Your task to perform on an android device: How much does a 2 bedroom apartment rent for in Philadelphia? Image 0: 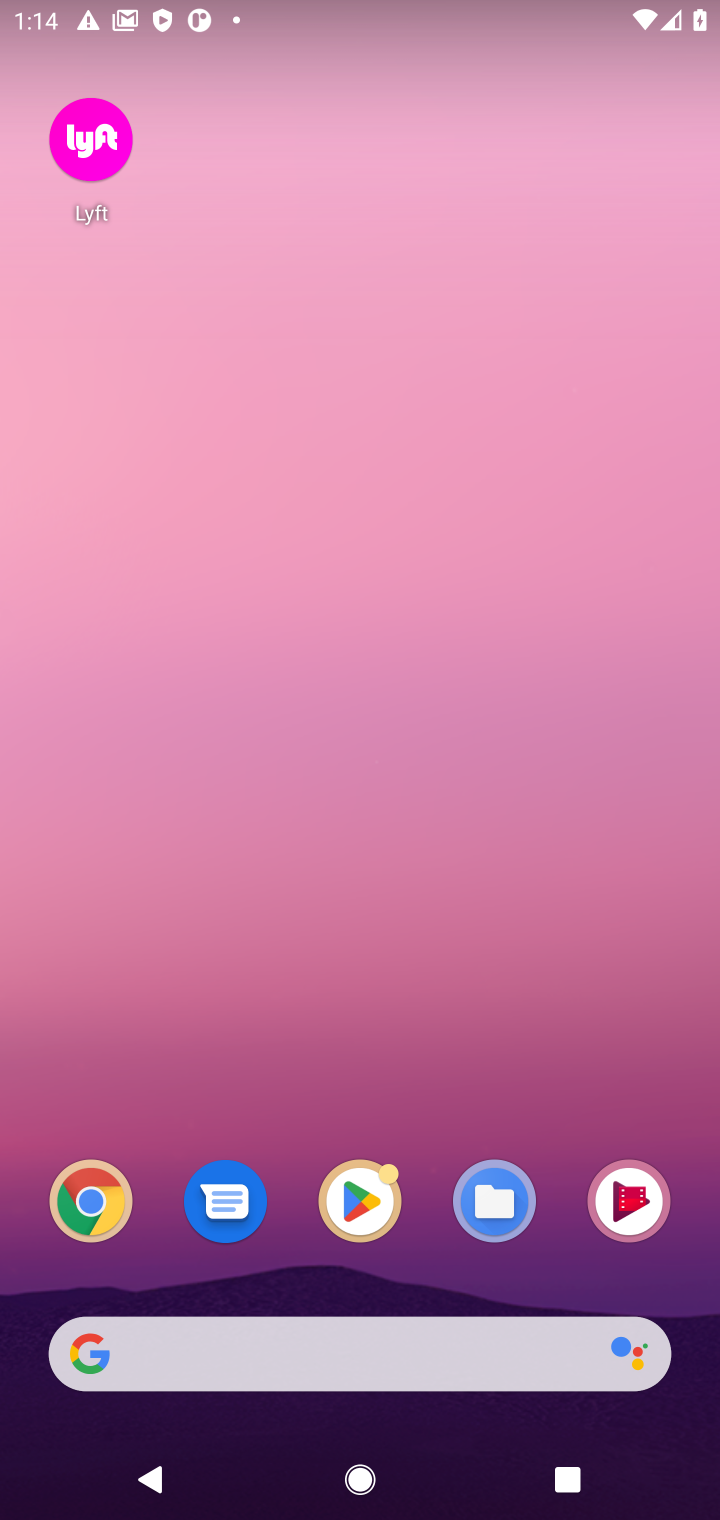
Step 0: click (168, 1353)
Your task to perform on an android device: How much does a 2 bedroom apartment rent for in Philadelphia? Image 1: 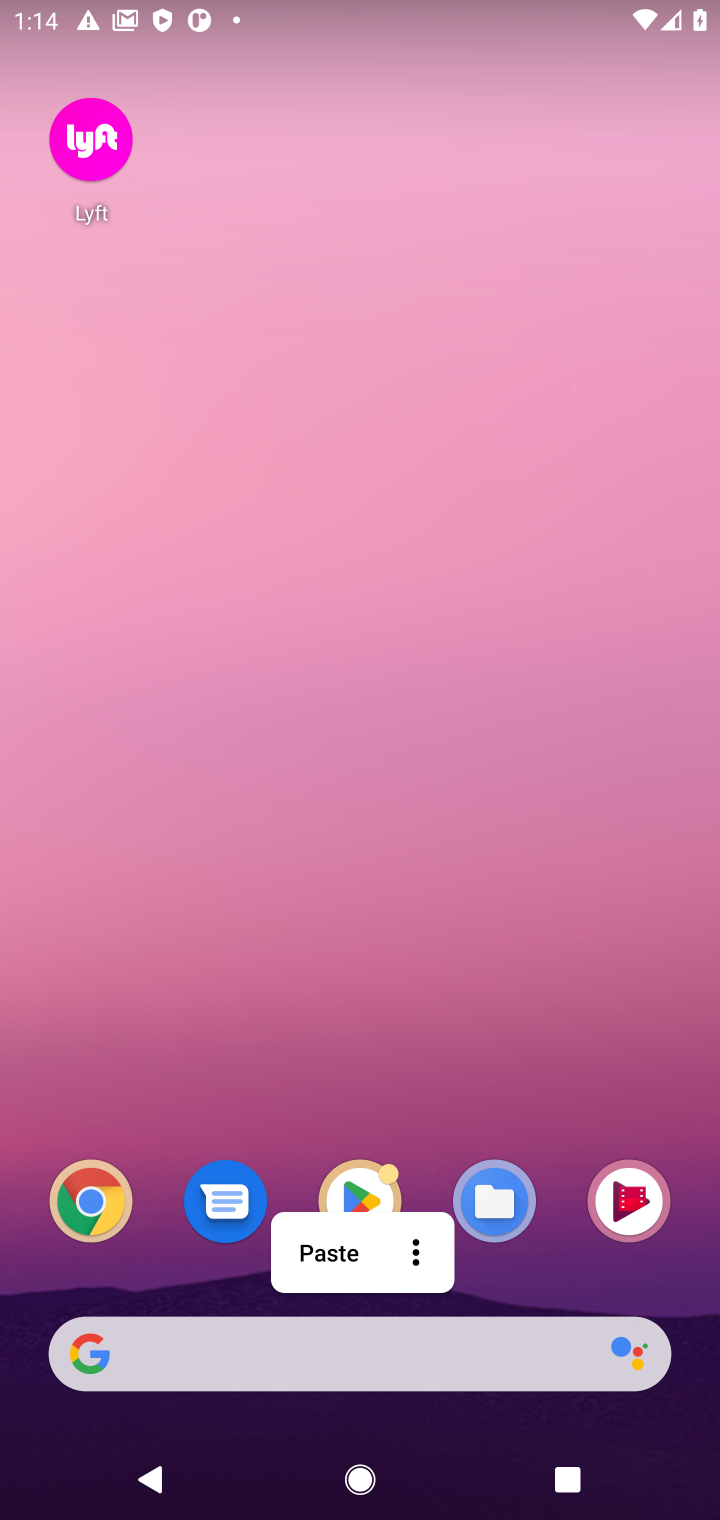
Step 1: click (255, 1357)
Your task to perform on an android device: How much does a 2 bedroom apartment rent for in Philadelphia? Image 2: 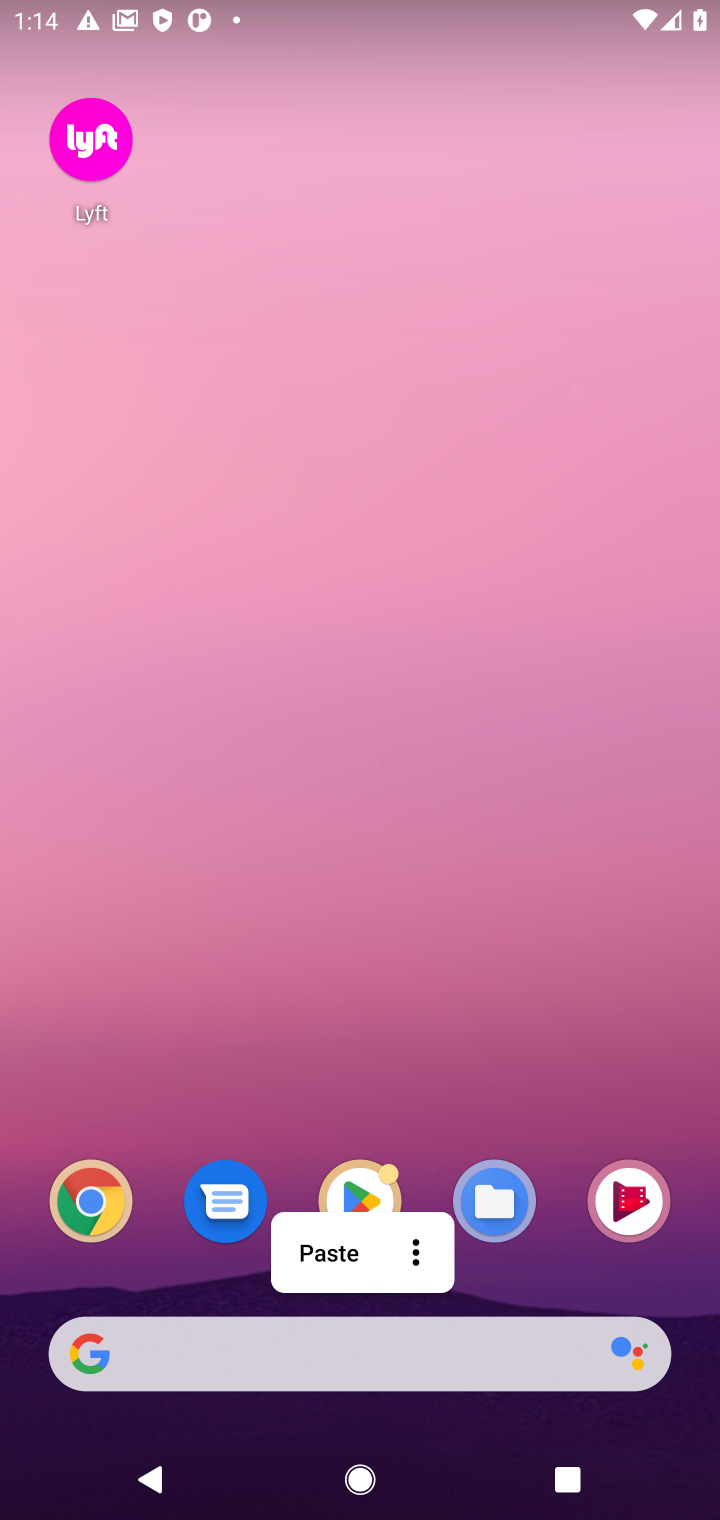
Step 2: click (269, 1341)
Your task to perform on an android device: How much does a 2 bedroom apartment rent for in Philadelphia? Image 3: 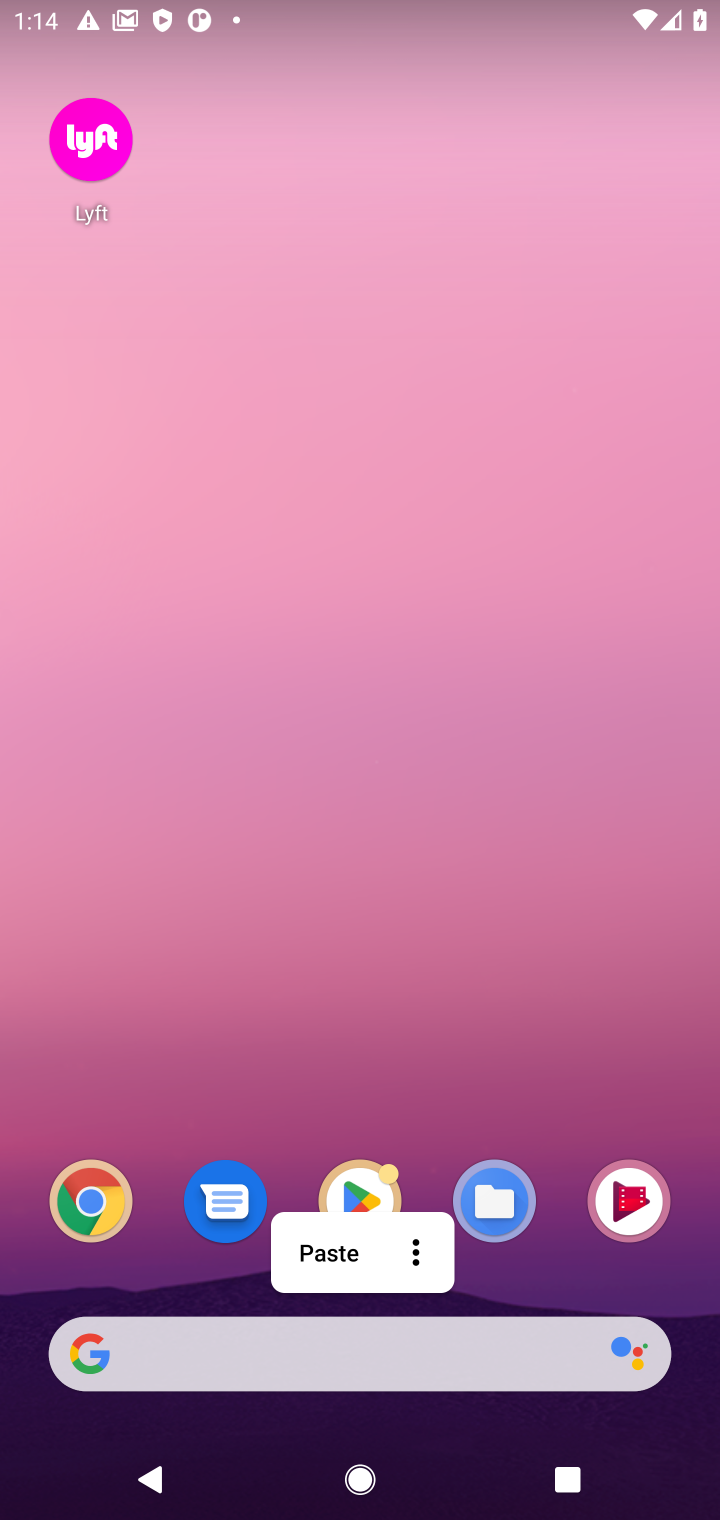
Step 3: click (114, 1359)
Your task to perform on an android device: How much does a 2 bedroom apartment rent for in Philadelphia? Image 4: 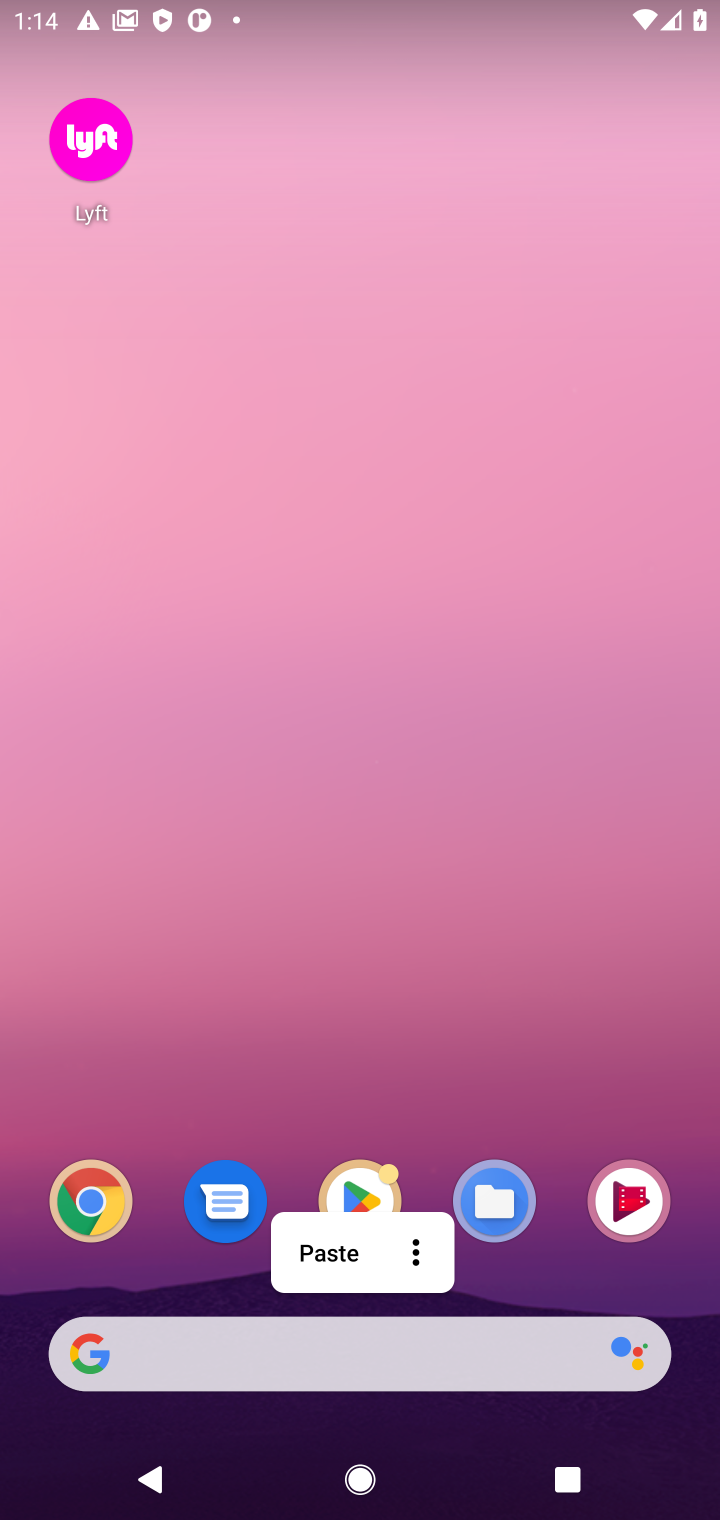
Step 4: click (206, 1342)
Your task to perform on an android device: How much does a 2 bedroom apartment rent for in Philadelphia? Image 5: 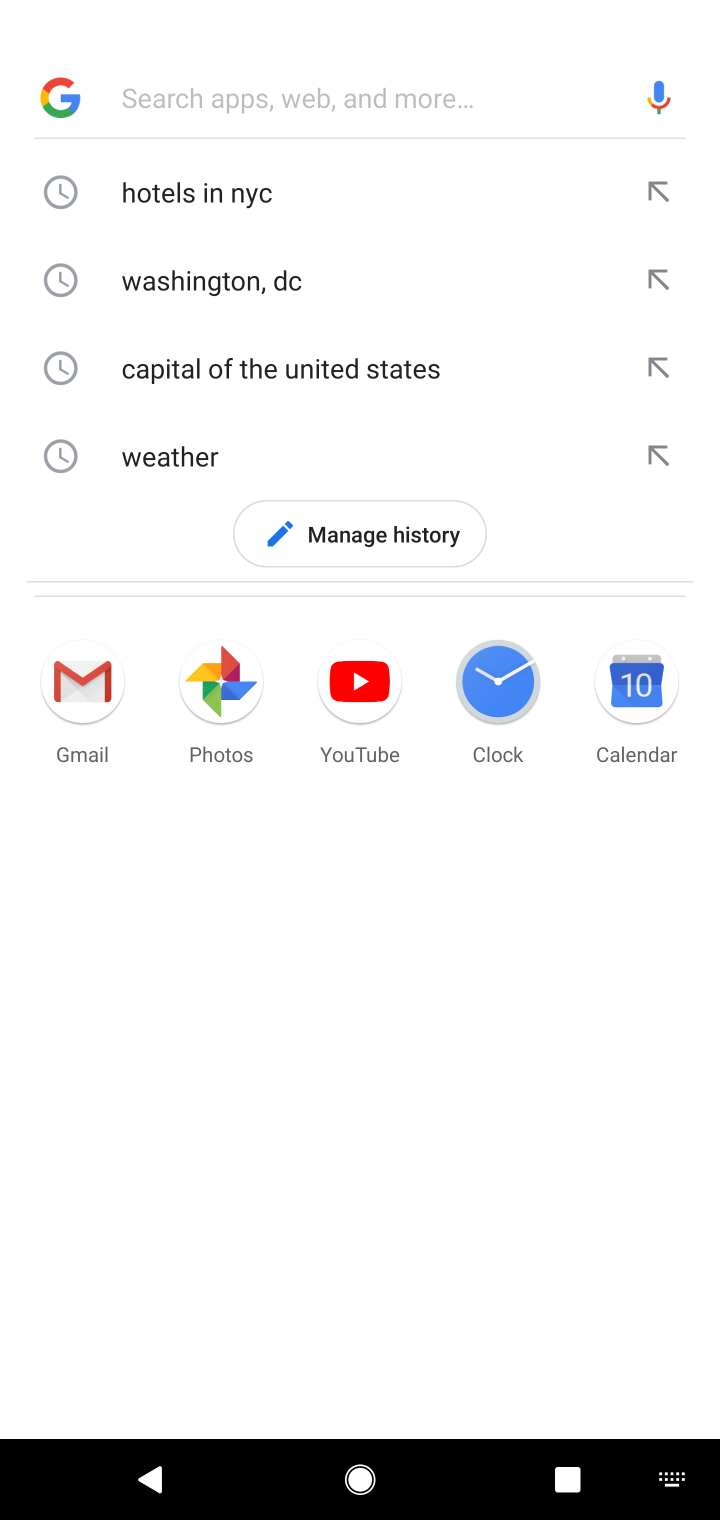
Step 5: click (175, 108)
Your task to perform on an android device: How much does a 2 bedroom apartment rent for in Philadelphia? Image 6: 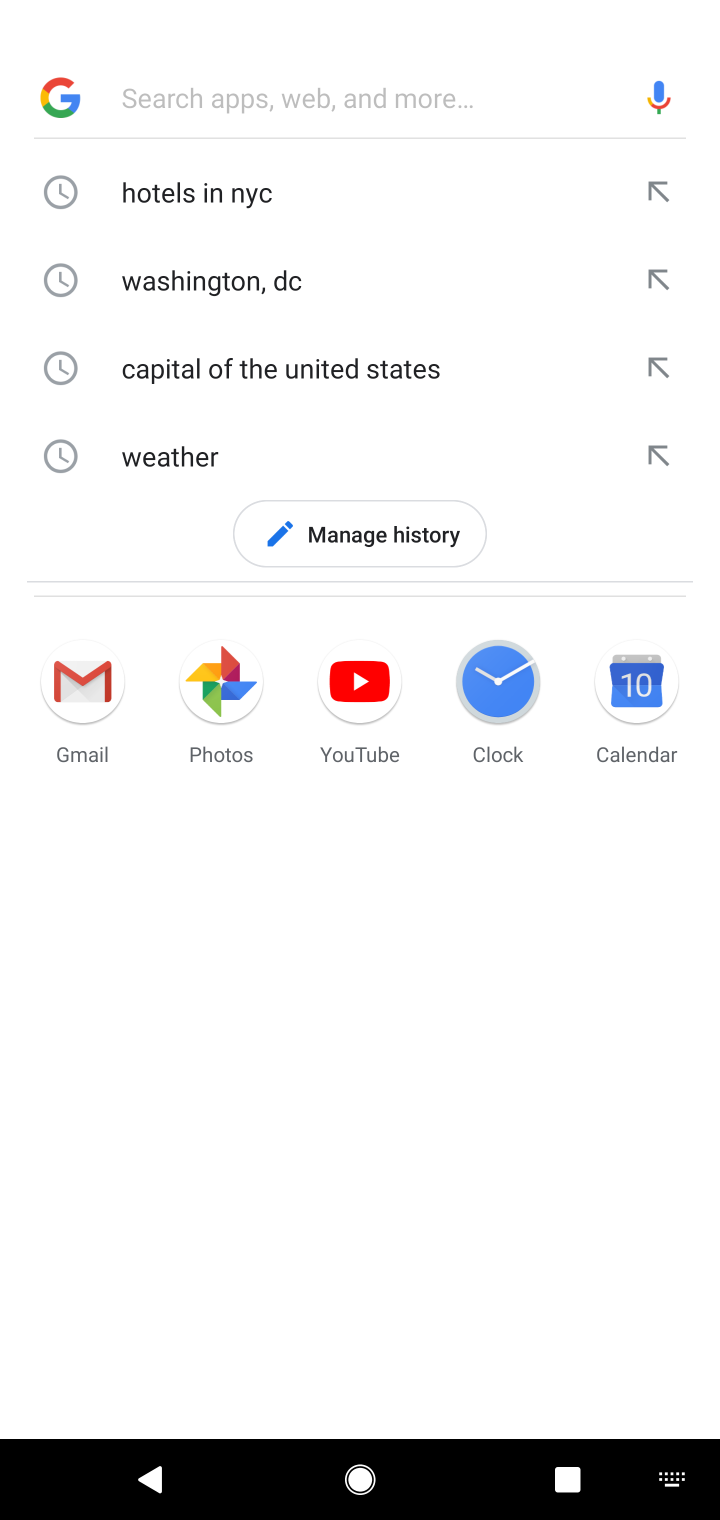
Step 6: type "How much does a 2 bedroom apartment rent for in Philadelphia?"
Your task to perform on an android device: How much does a 2 bedroom apartment rent for in Philadelphia? Image 7: 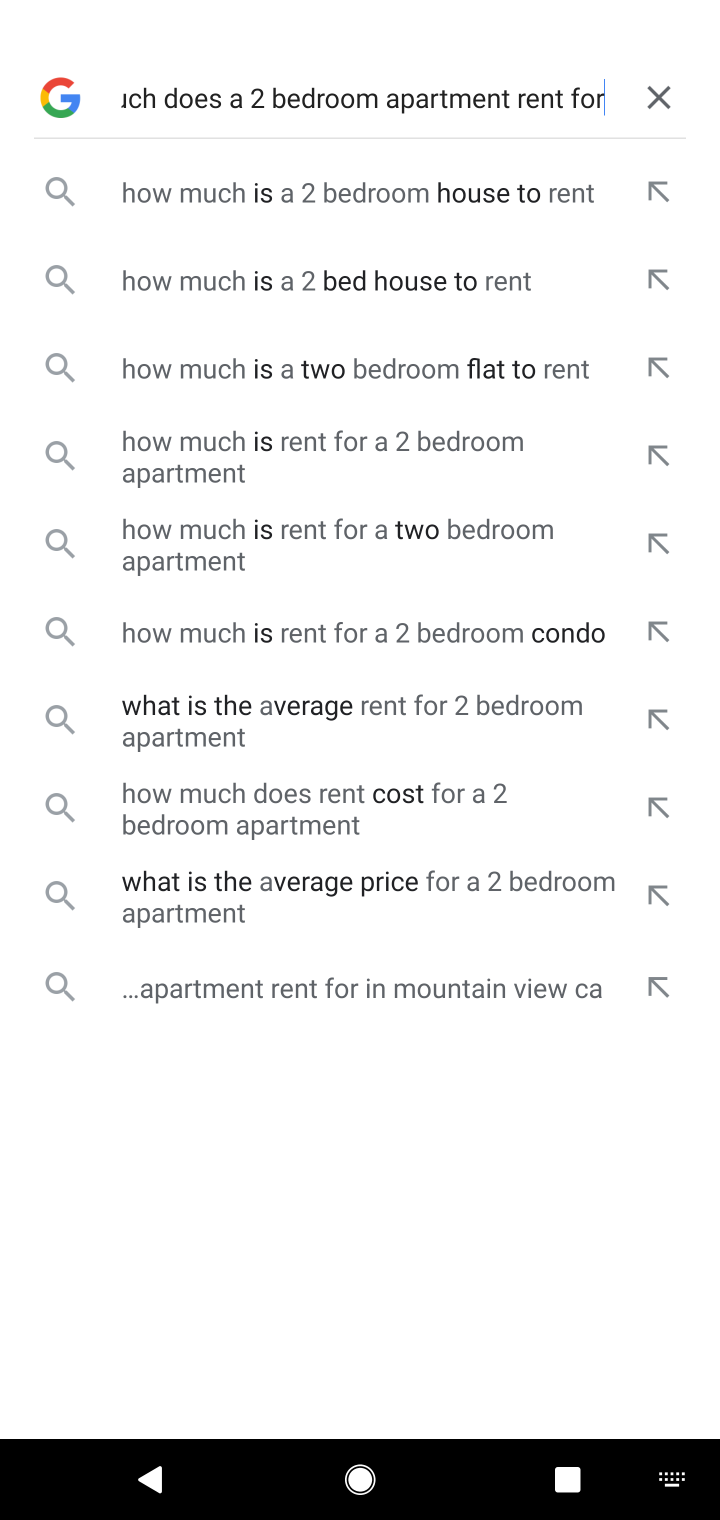
Step 7: click (577, 99)
Your task to perform on an android device: How much does a 2 bedroom apartment rent for in Philadelphia? Image 8: 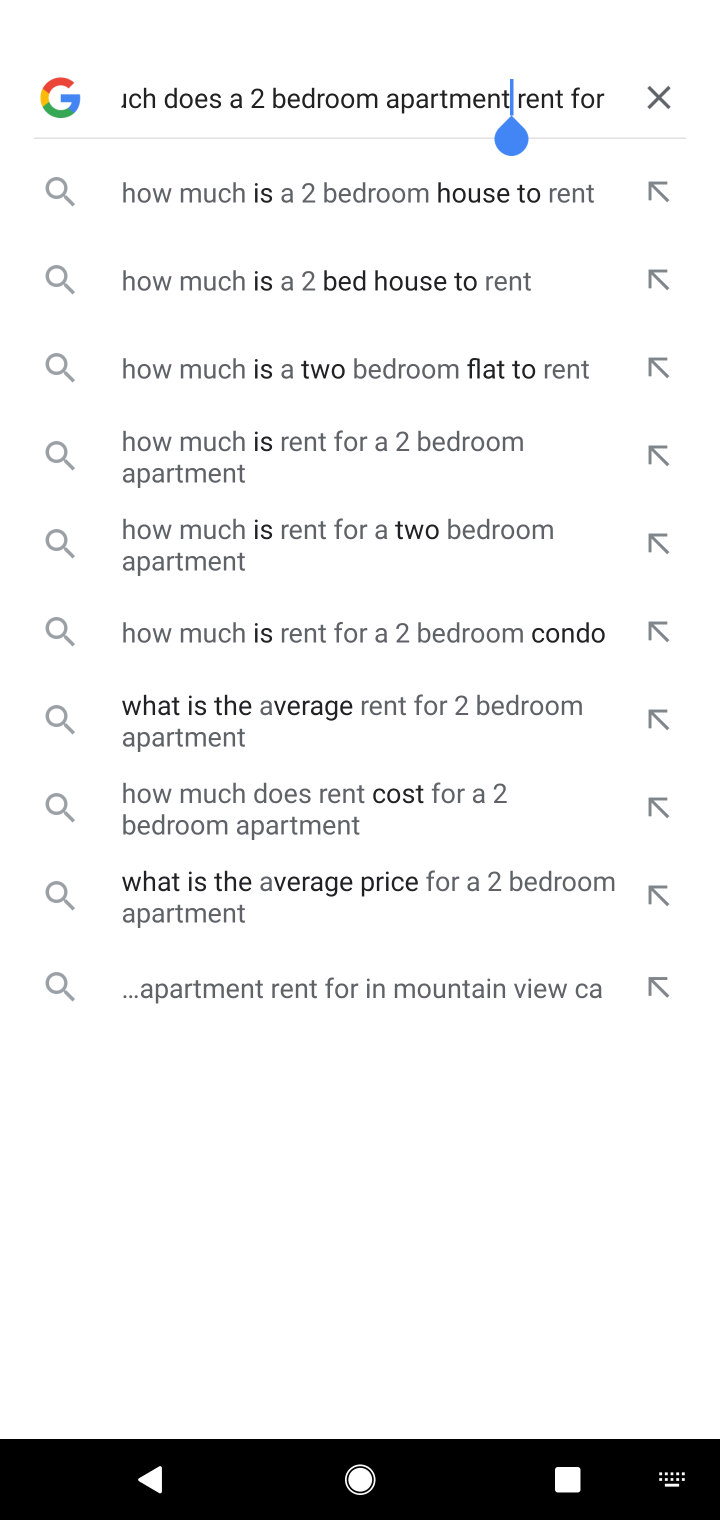
Step 8: click (602, 96)
Your task to perform on an android device: How much does a 2 bedroom apartment rent for in Philadelphia? Image 9: 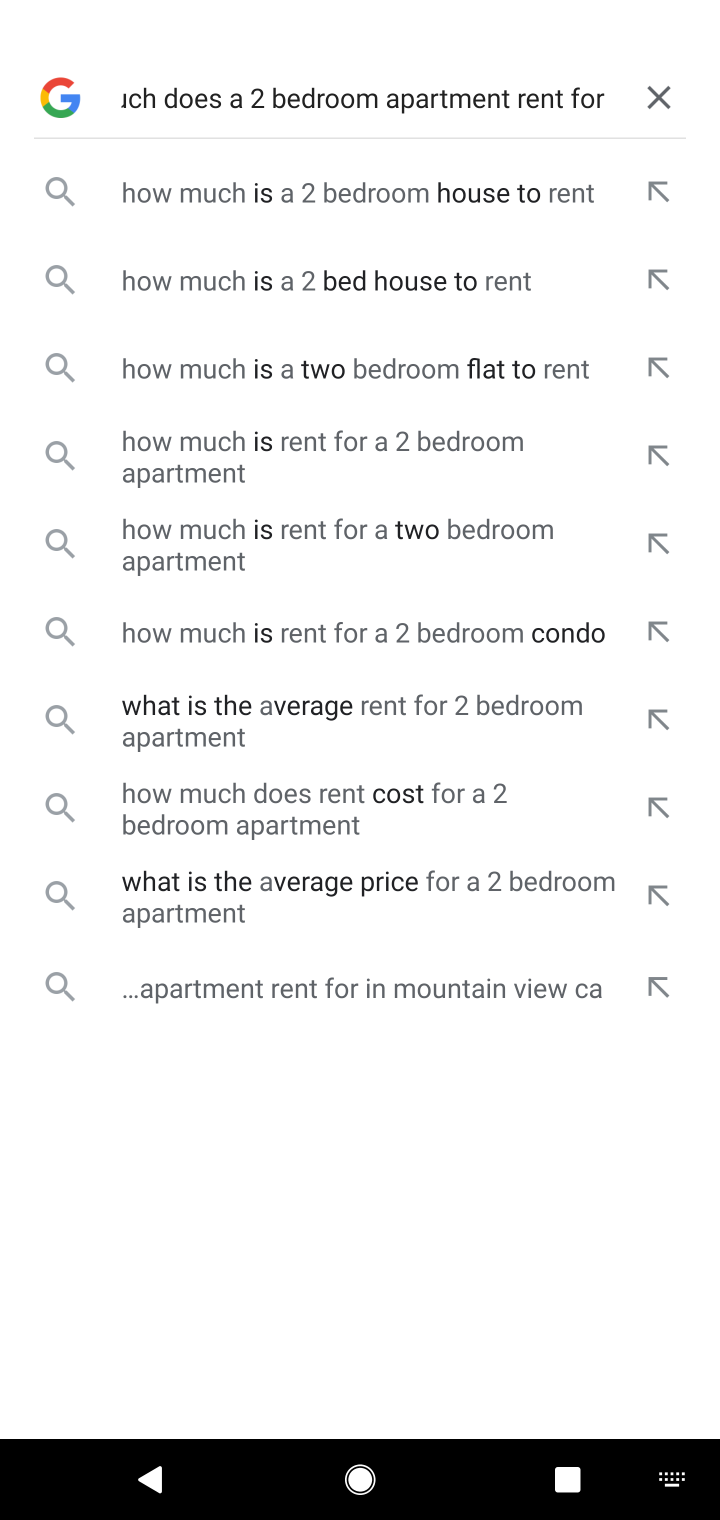
Step 9: type " in philadelphia?"
Your task to perform on an android device: How much does a 2 bedroom apartment rent for in Philadelphia? Image 10: 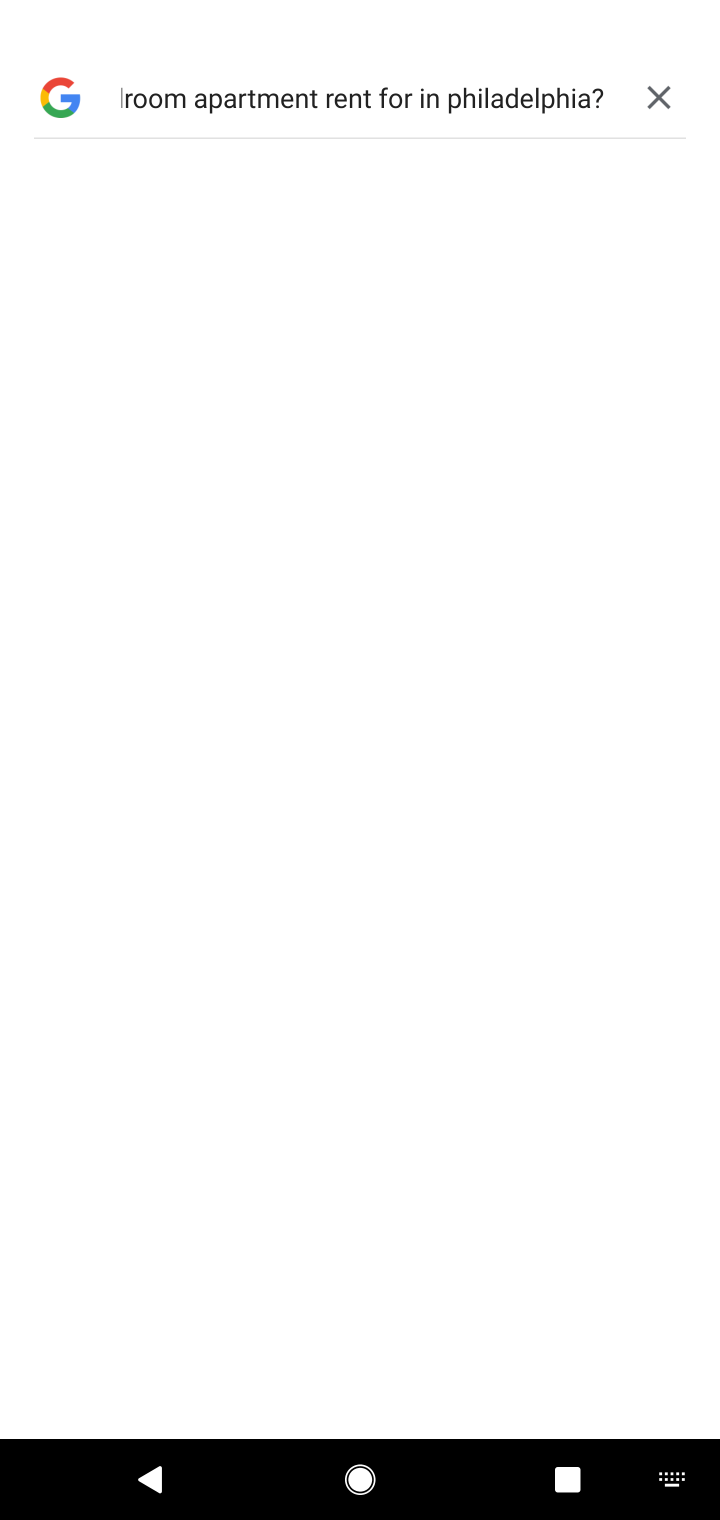
Step 10: click (539, 115)
Your task to perform on an android device: How much does a 2 bedroom apartment rent for in Philadelphia? Image 11: 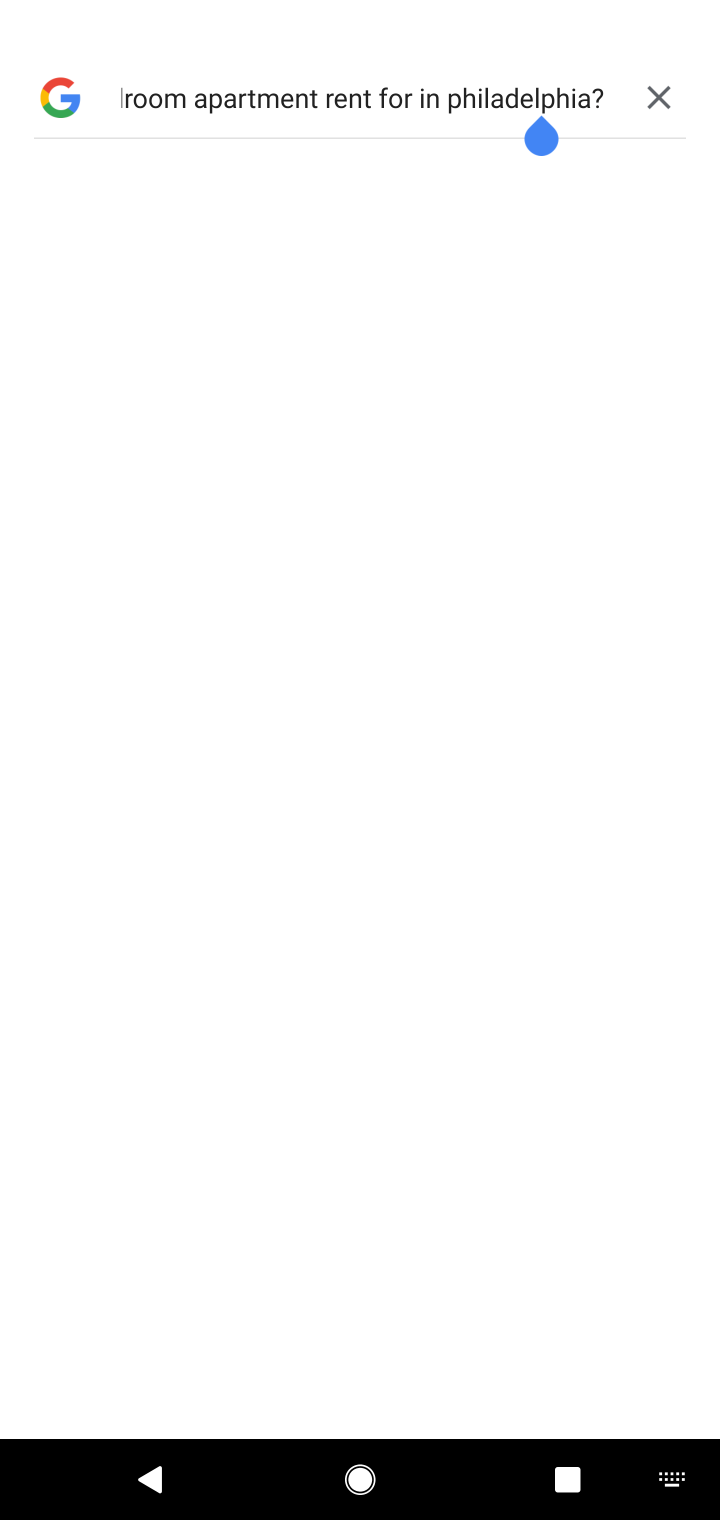
Step 11: click (612, 111)
Your task to perform on an android device: How much does a 2 bedroom apartment rent for in Philadelphia? Image 12: 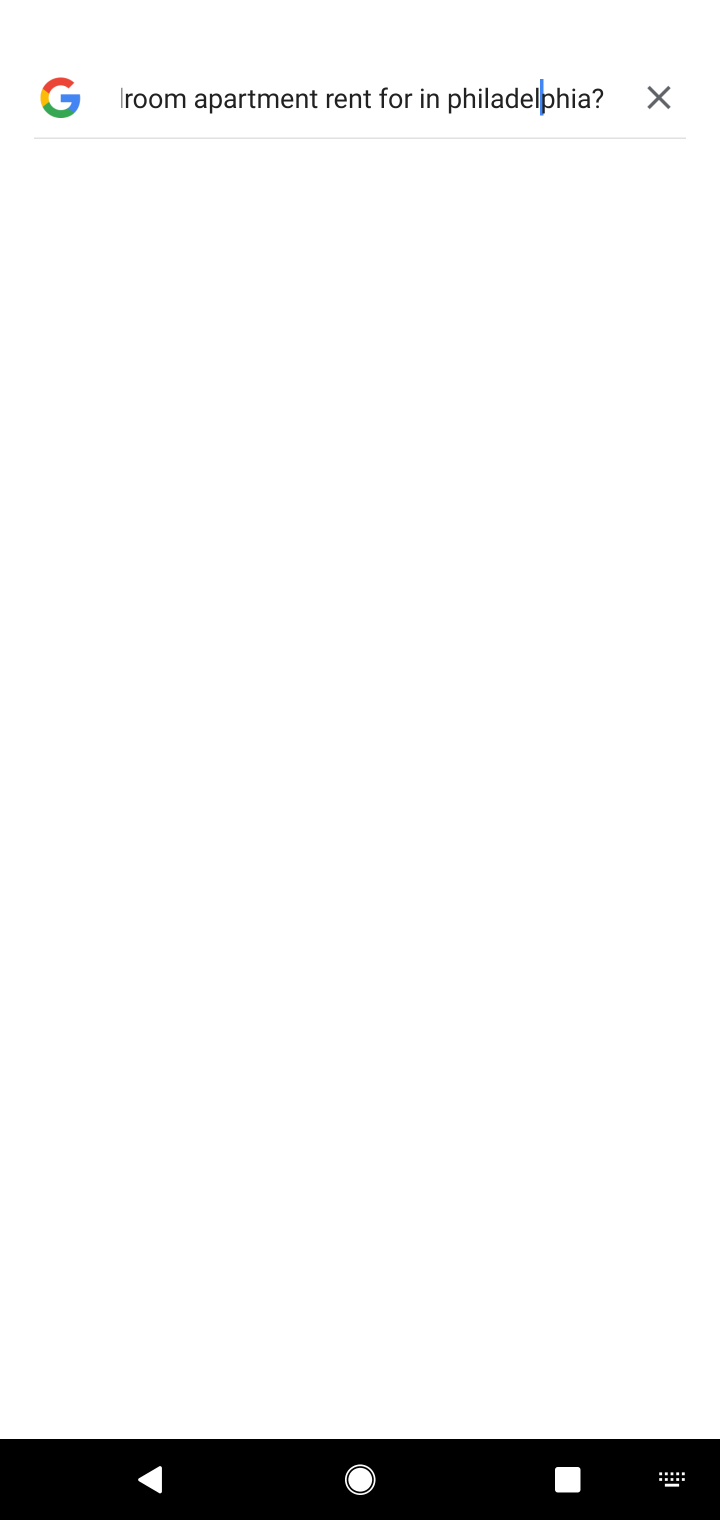
Step 12: click (607, 111)
Your task to perform on an android device: How much does a 2 bedroom apartment rent for in Philadelphia? Image 13: 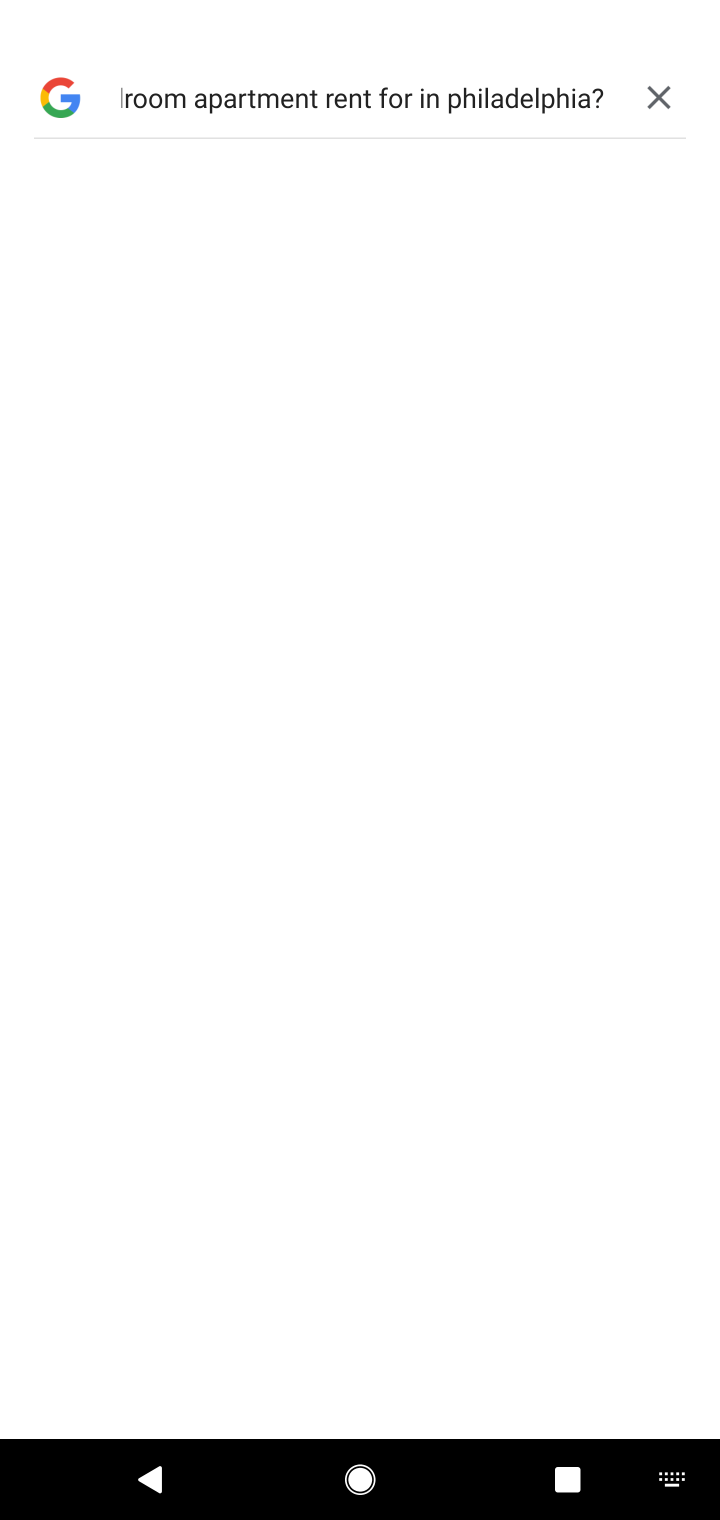
Step 13: drag from (611, 109) to (352, 140)
Your task to perform on an android device: How much does a 2 bedroom apartment rent for in Philadelphia? Image 14: 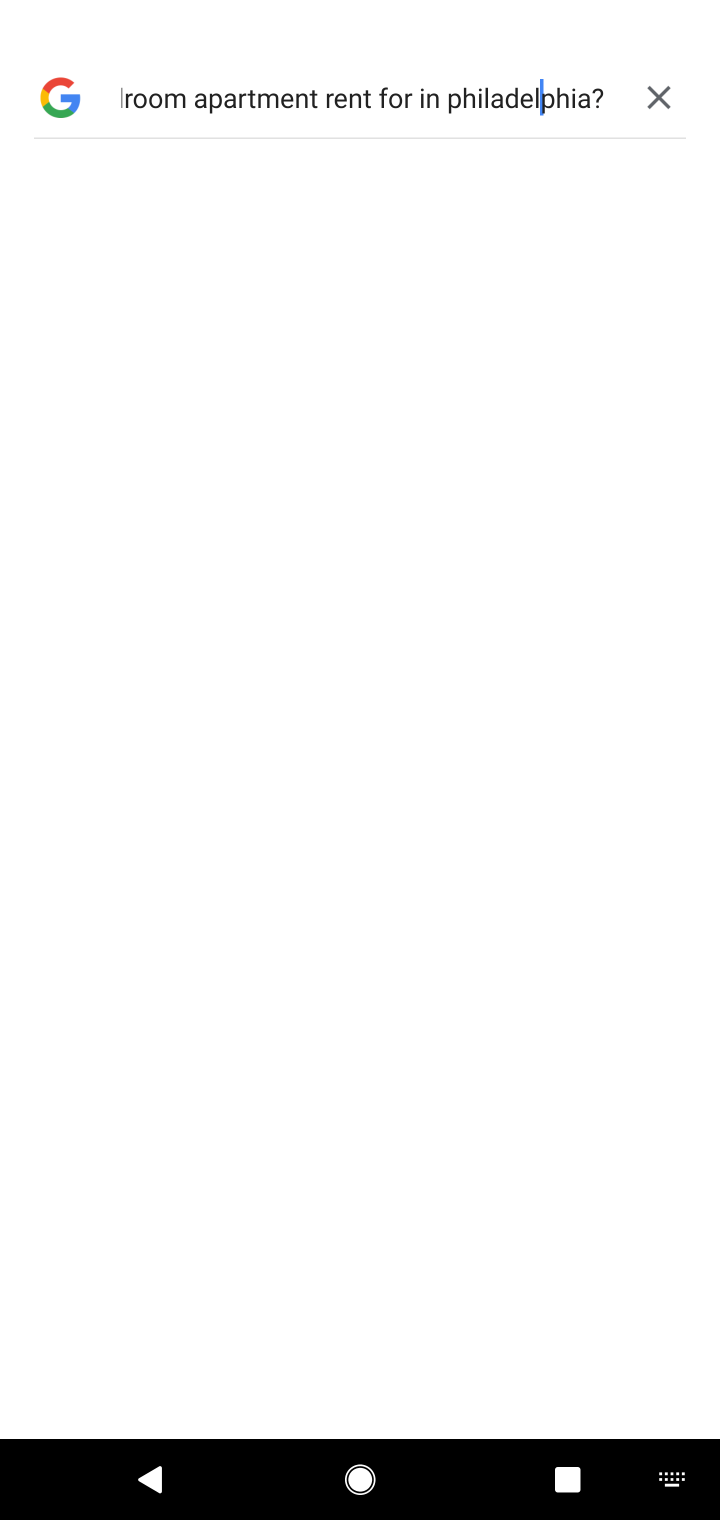
Step 14: drag from (607, 91) to (353, 88)
Your task to perform on an android device: How much does a 2 bedroom apartment rent for in Philadelphia? Image 15: 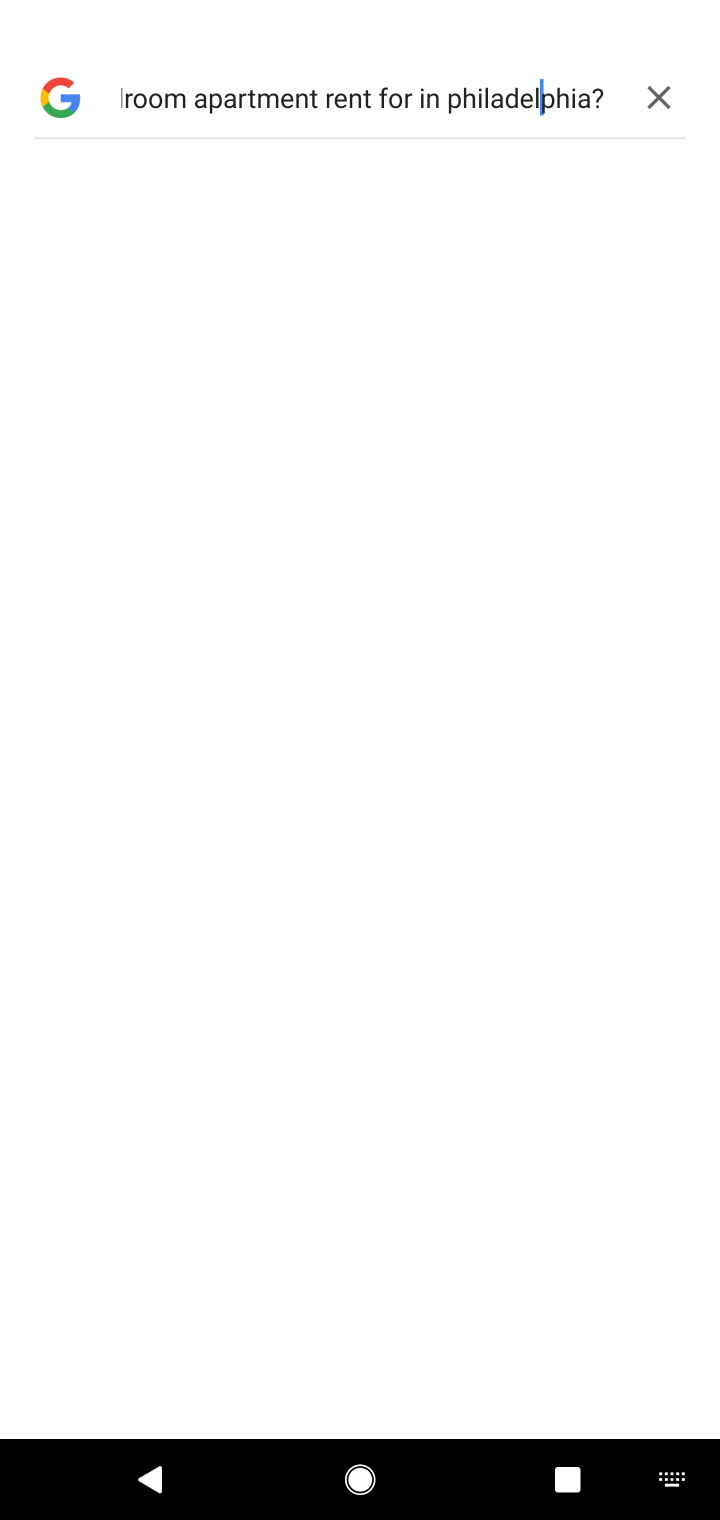
Step 15: click (655, 88)
Your task to perform on an android device: How much does a 2 bedroom apartment rent for in Philadelphia? Image 16: 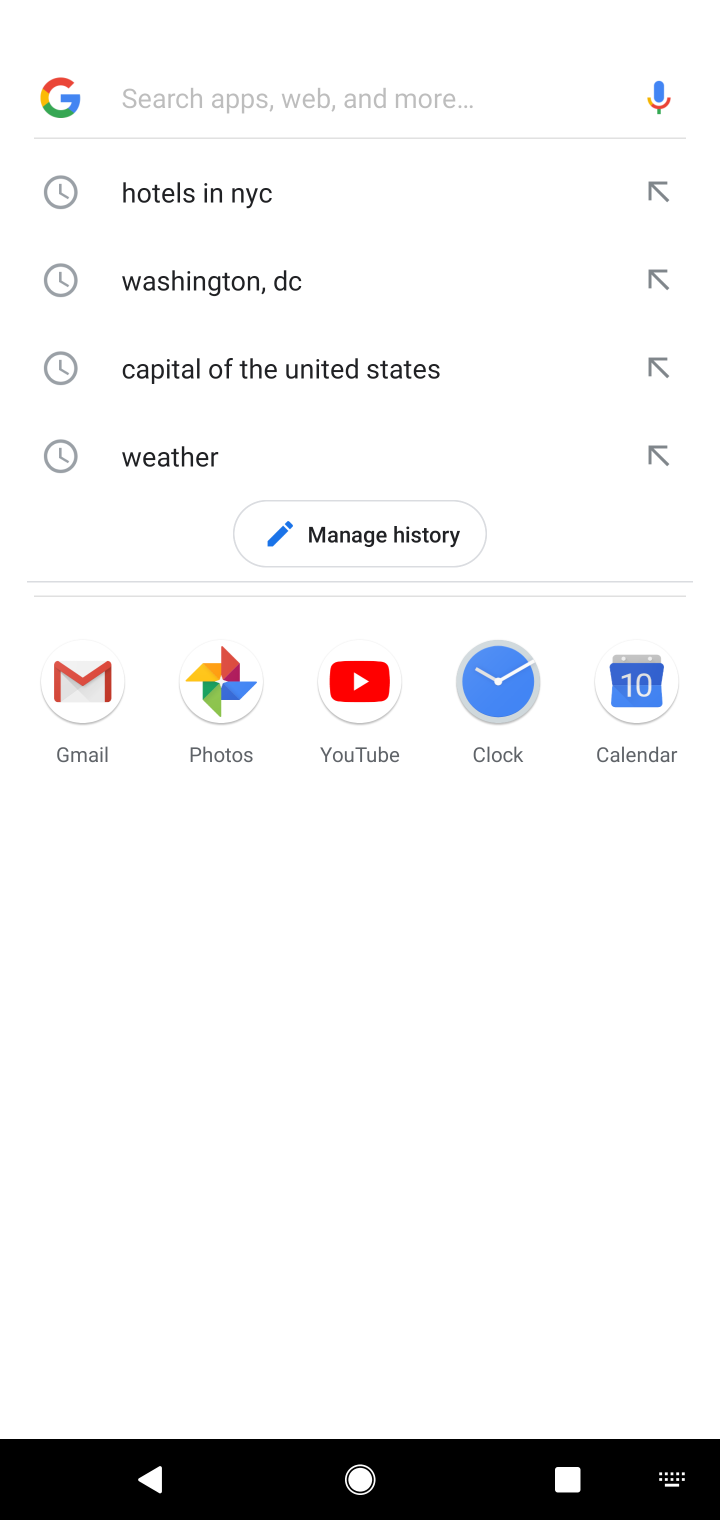
Step 16: click (376, 87)
Your task to perform on an android device: How much does a 2 bedroom apartment rent for in Philadelphia? Image 17: 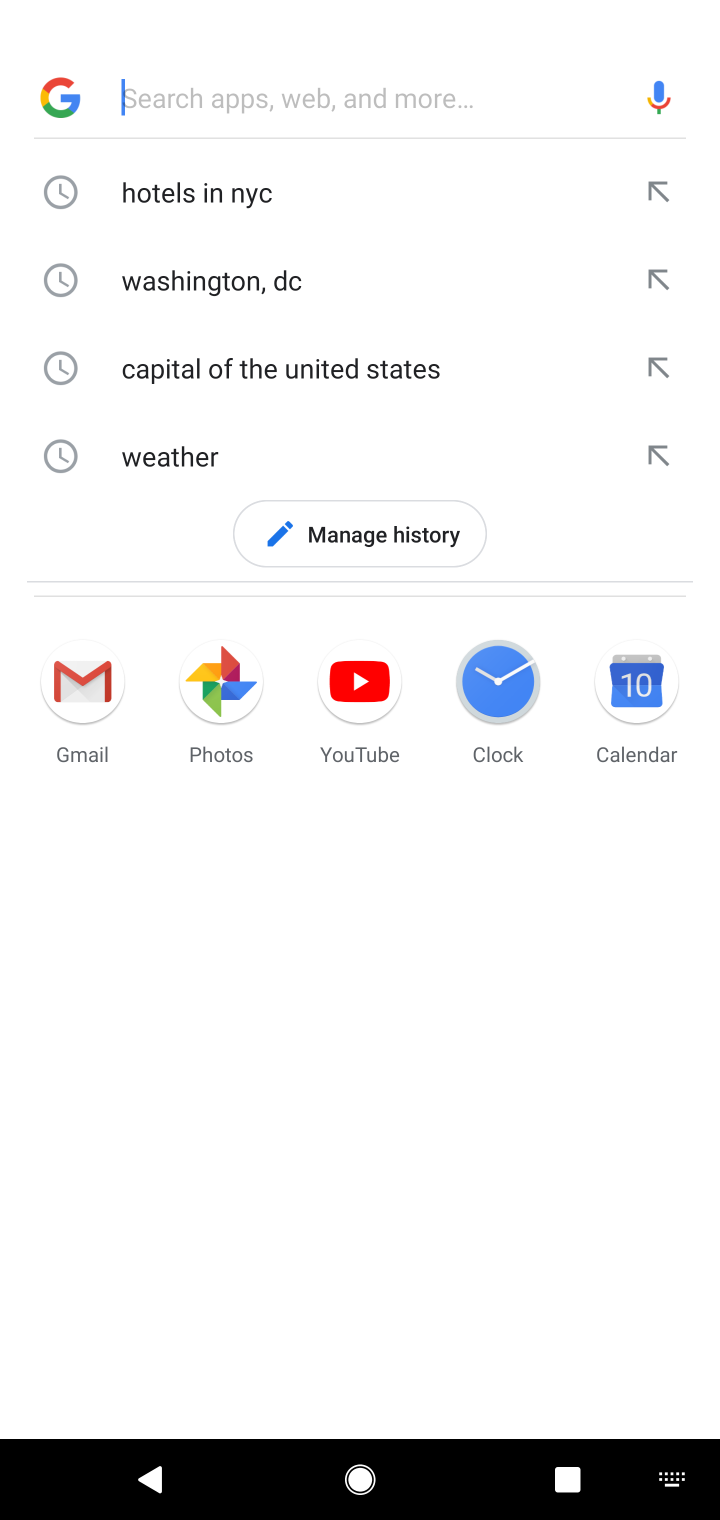
Step 17: type "How much does a 2 bedroom apartment rent for in Philadelphia?"
Your task to perform on an android device: How much does a 2 bedroom apartment rent for in Philadelphia? Image 18: 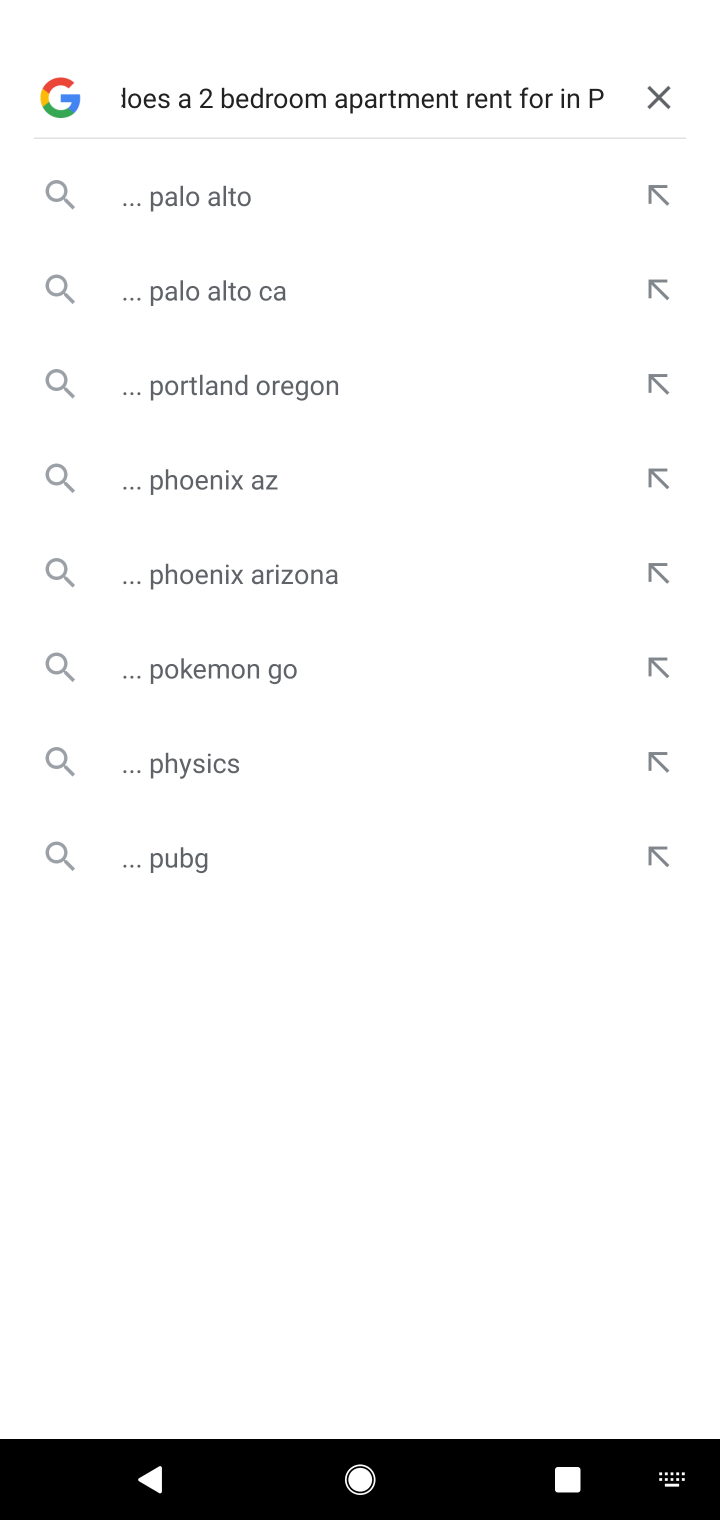
Step 18: type "hiladelphia"
Your task to perform on an android device: How much does a 2 bedroom apartment rent for in Philadelphia? Image 19: 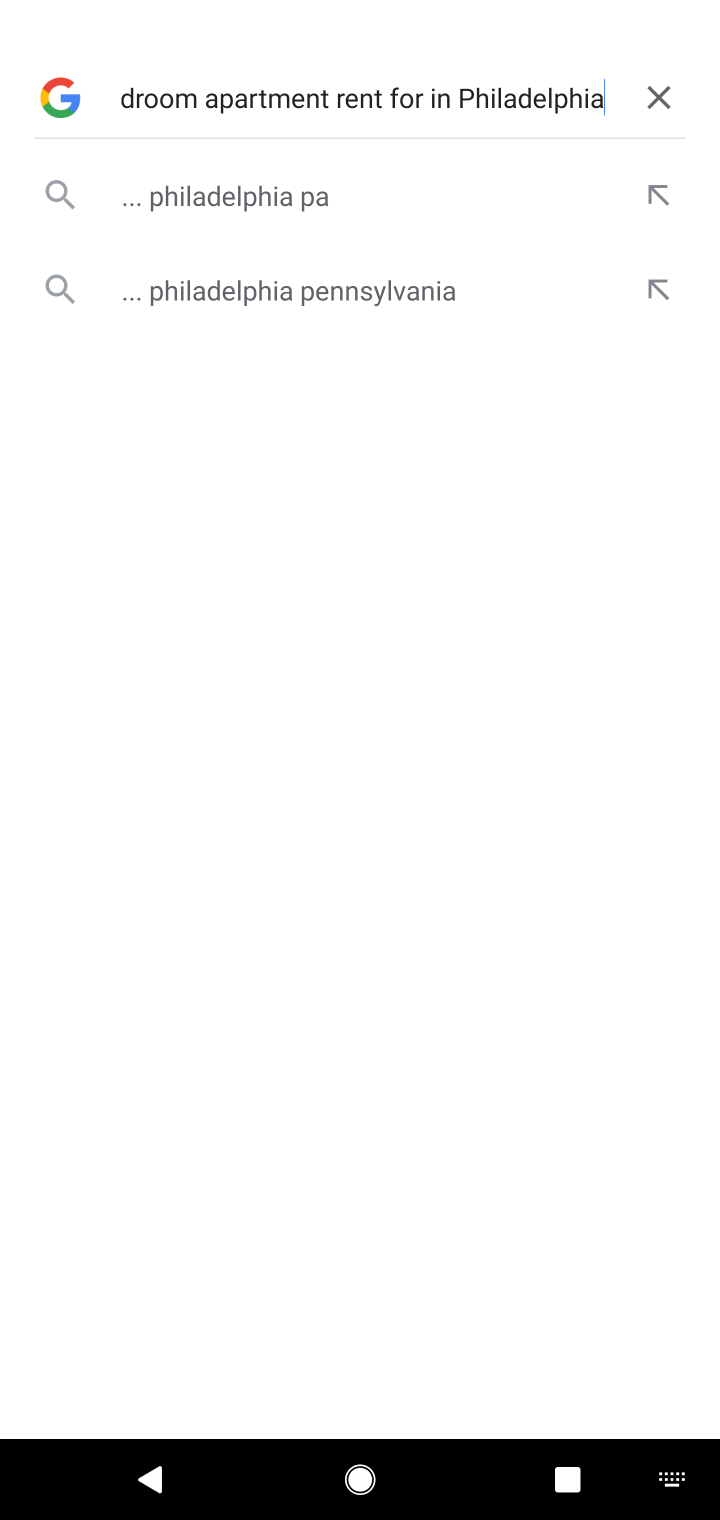
Step 19: click (202, 205)
Your task to perform on an android device: How much does a 2 bedroom apartment rent for in Philadelphia? Image 20: 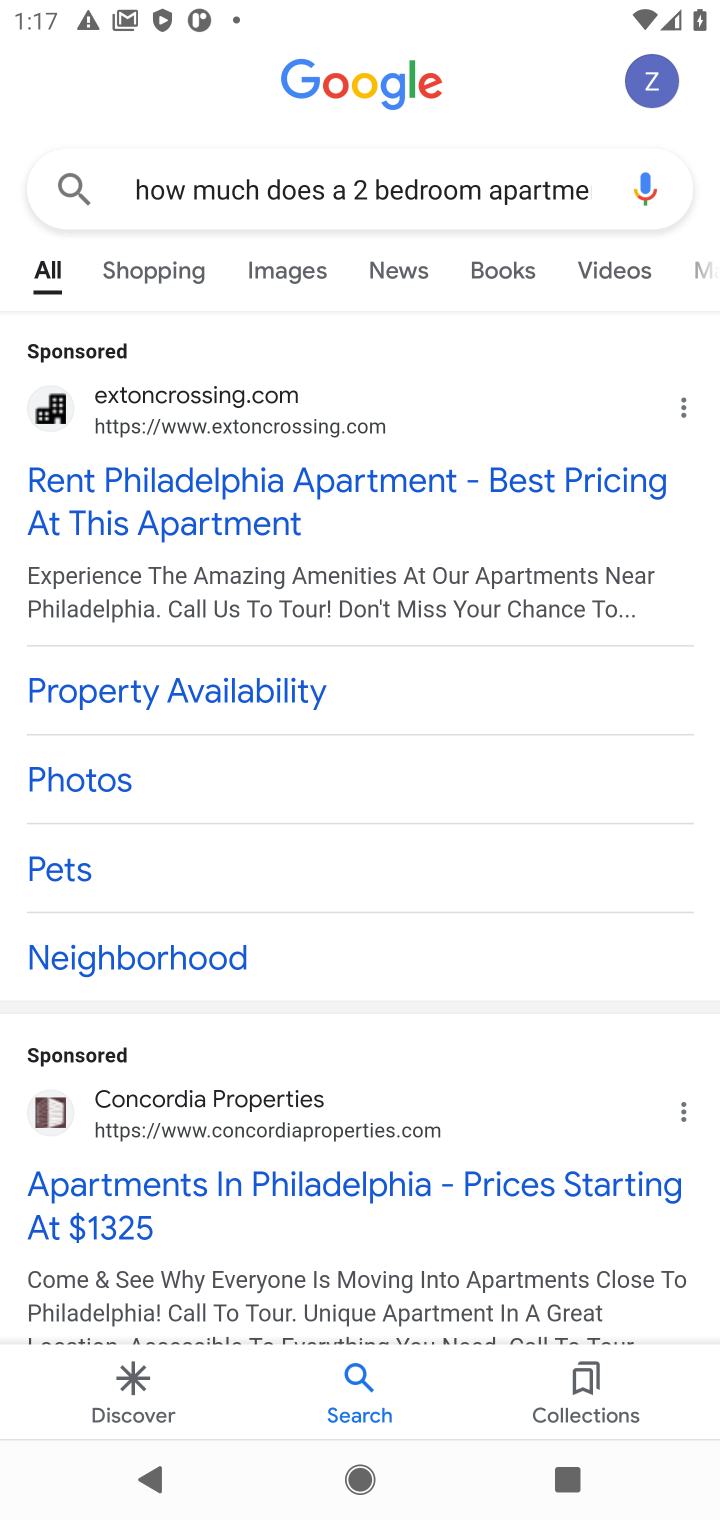
Step 20: click (170, 497)
Your task to perform on an android device: How much does a 2 bedroom apartment rent for in Philadelphia? Image 21: 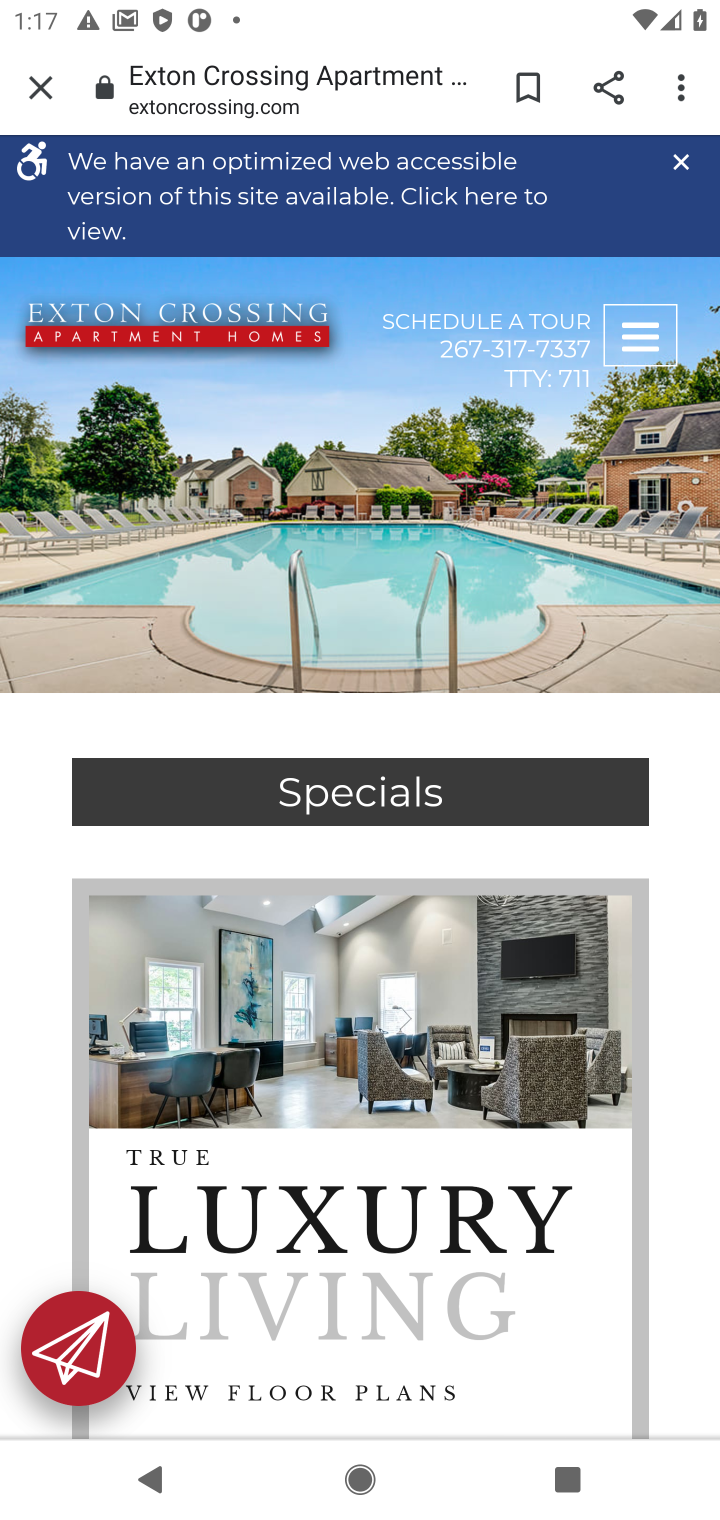
Step 21: drag from (664, 593) to (603, 222)
Your task to perform on an android device: How much does a 2 bedroom apartment rent for in Philadelphia? Image 22: 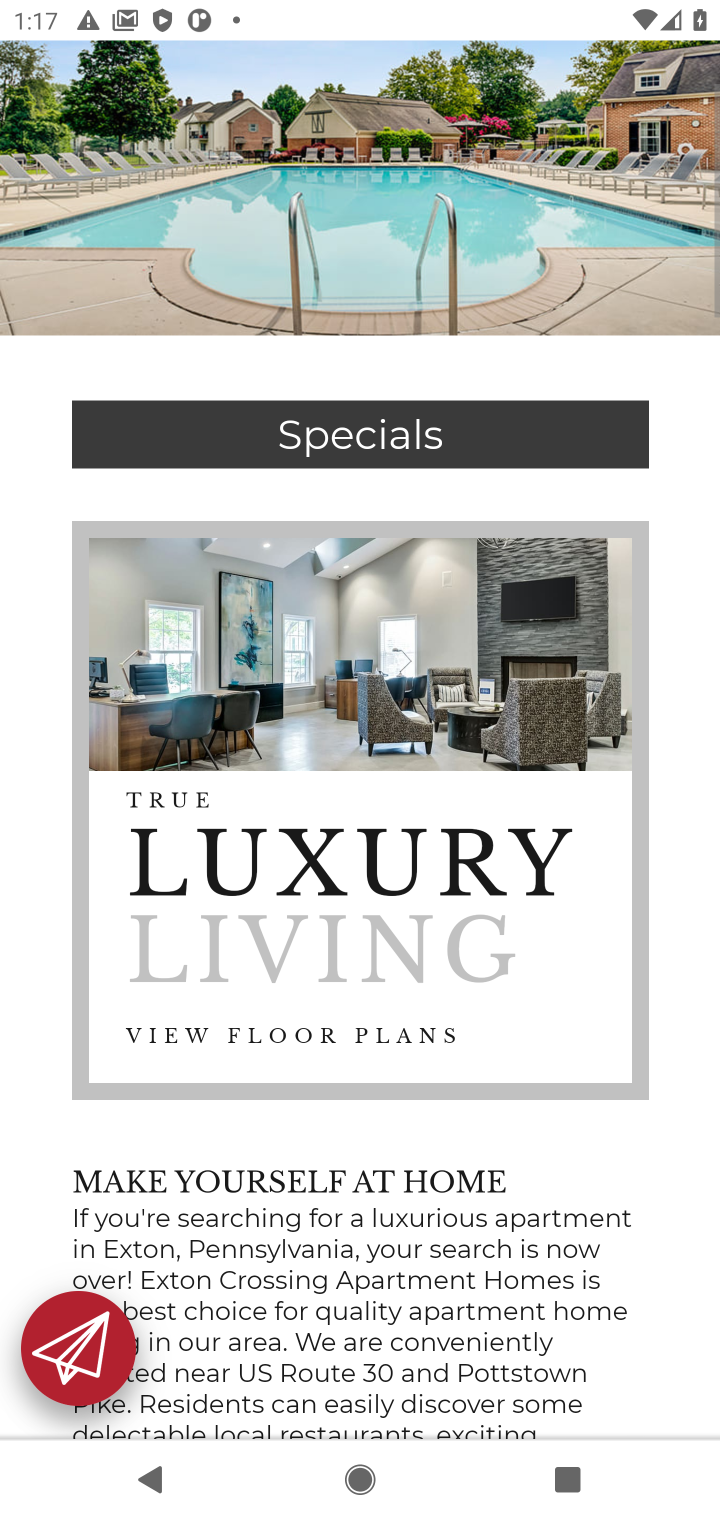
Step 22: drag from (453, 717) to (461, 435)
Your task to perform on an android device: How much does a 2 bedroom apartment rent for in Philadelphia? Image 23: 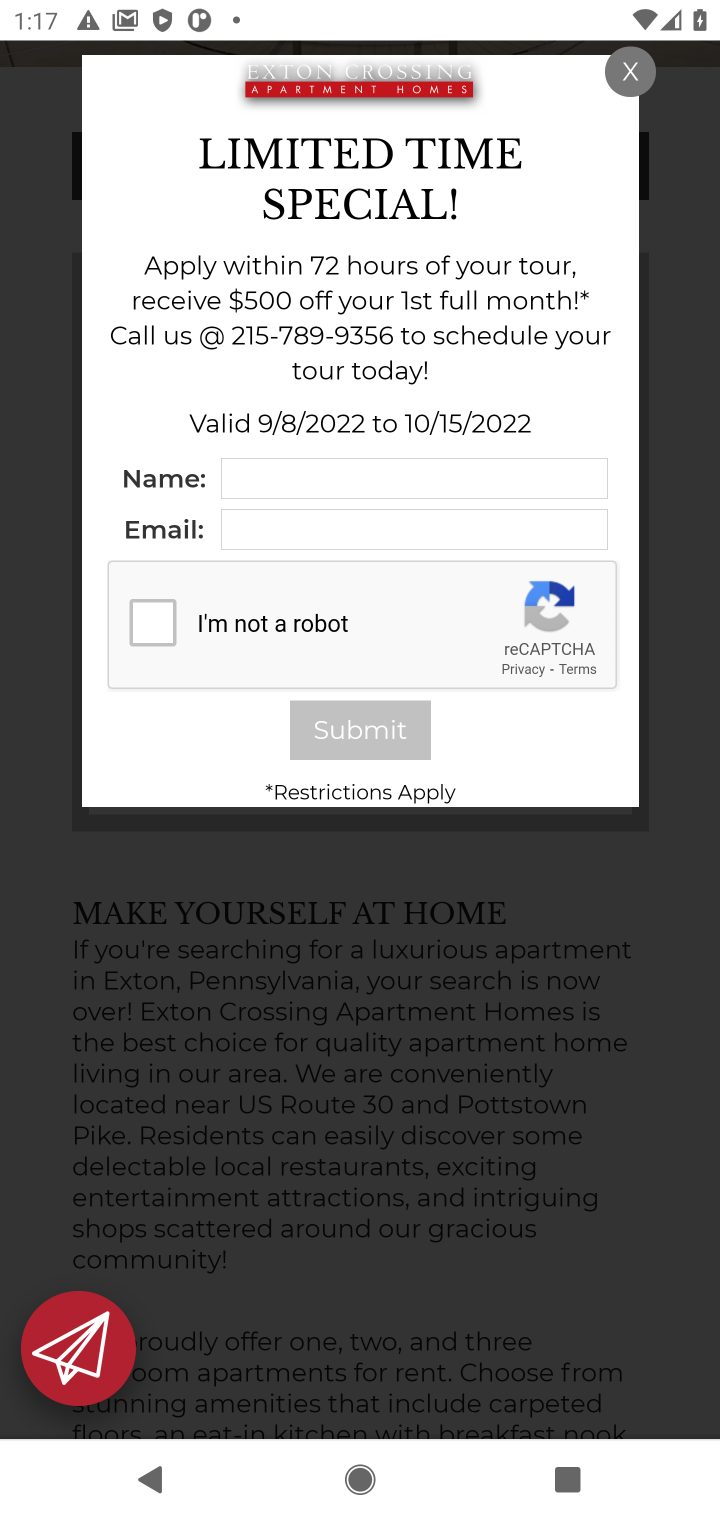
Step 23: click (620, 74)
Your task to perform on an android device: How much does a 2 bedroom apartment rent for in Philadelphia? Image 24: 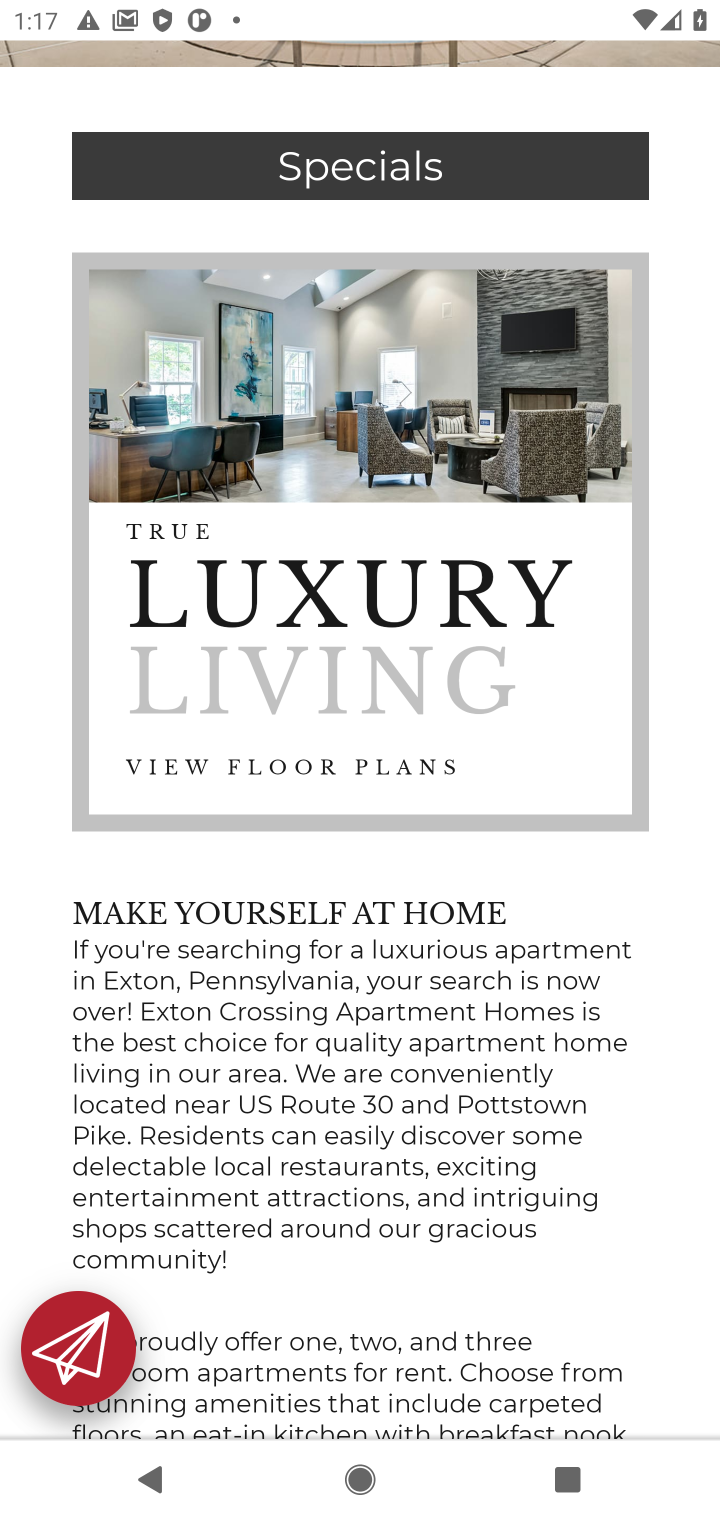
Step 24: drag from (341, 975) to (391, 361)
Your task to perform on an android device: How much does a 2 bedroom apartment rent for in Philadelphia? Image 25: 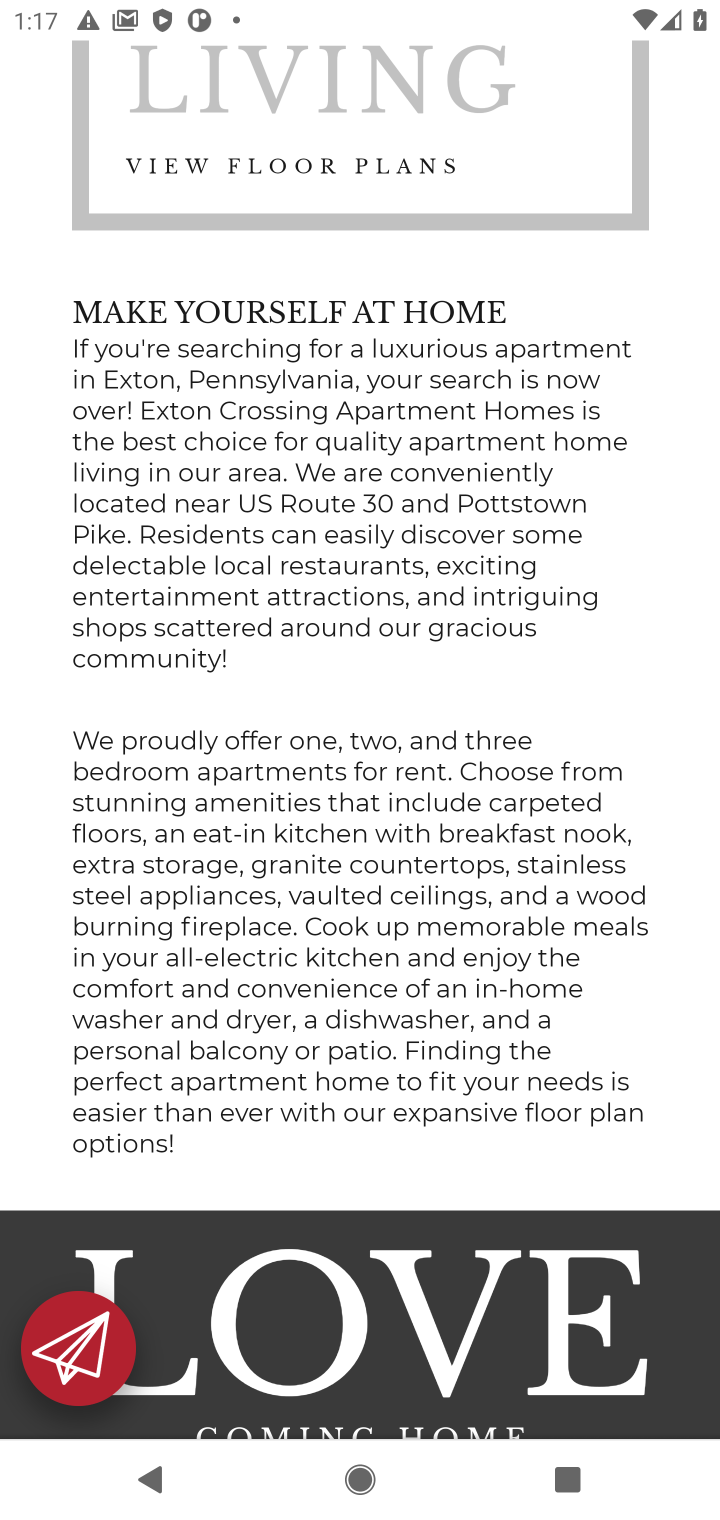
Step 25: drag from (359, 1049) to (390, 144)
Your task to perform on an android device: How much does a 2 bedroom apartment rent for in Philadelphia? Image 26: 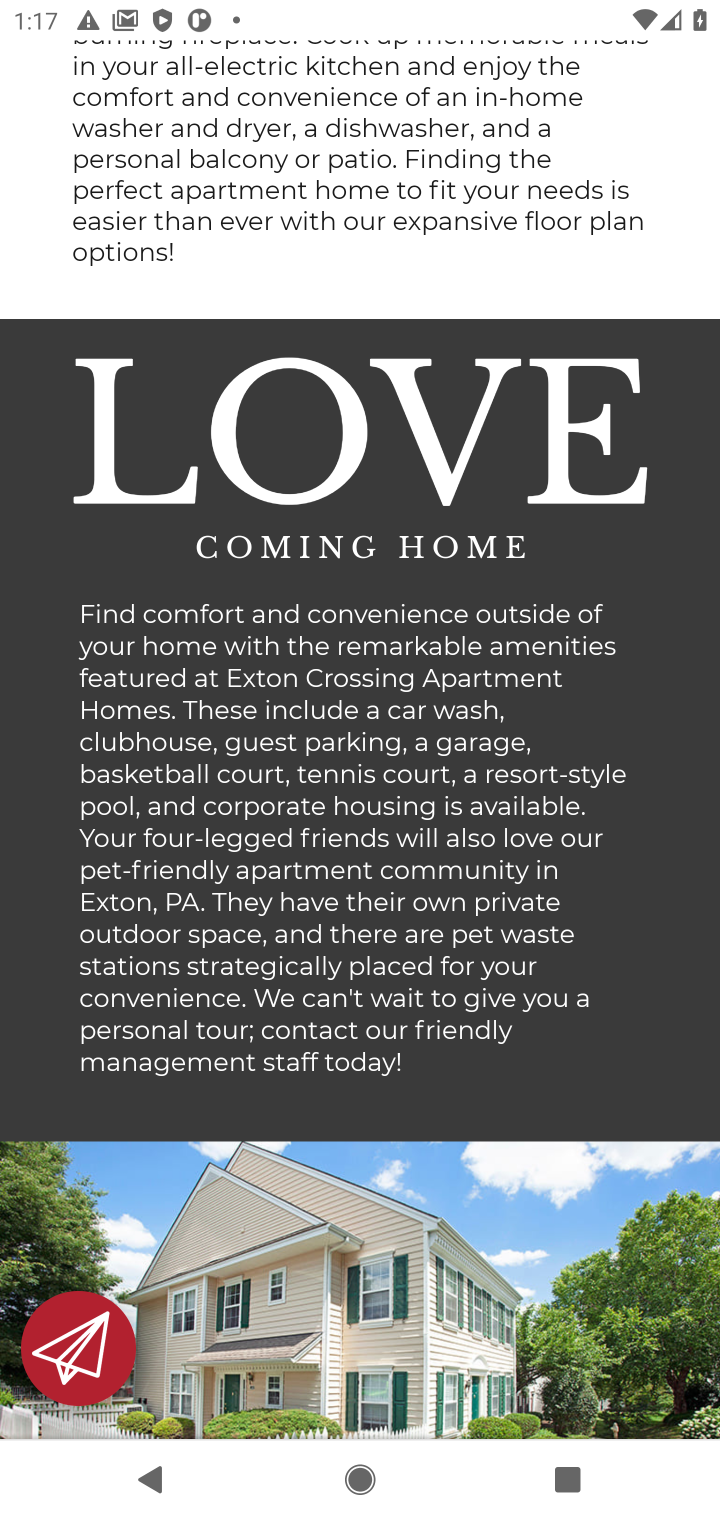
Step 26: drag from (372, 970) to (484, 233)
Your task to perform on an android device: How much does a 2 bedroom apartment rent for in Philadelphia? Image 27: 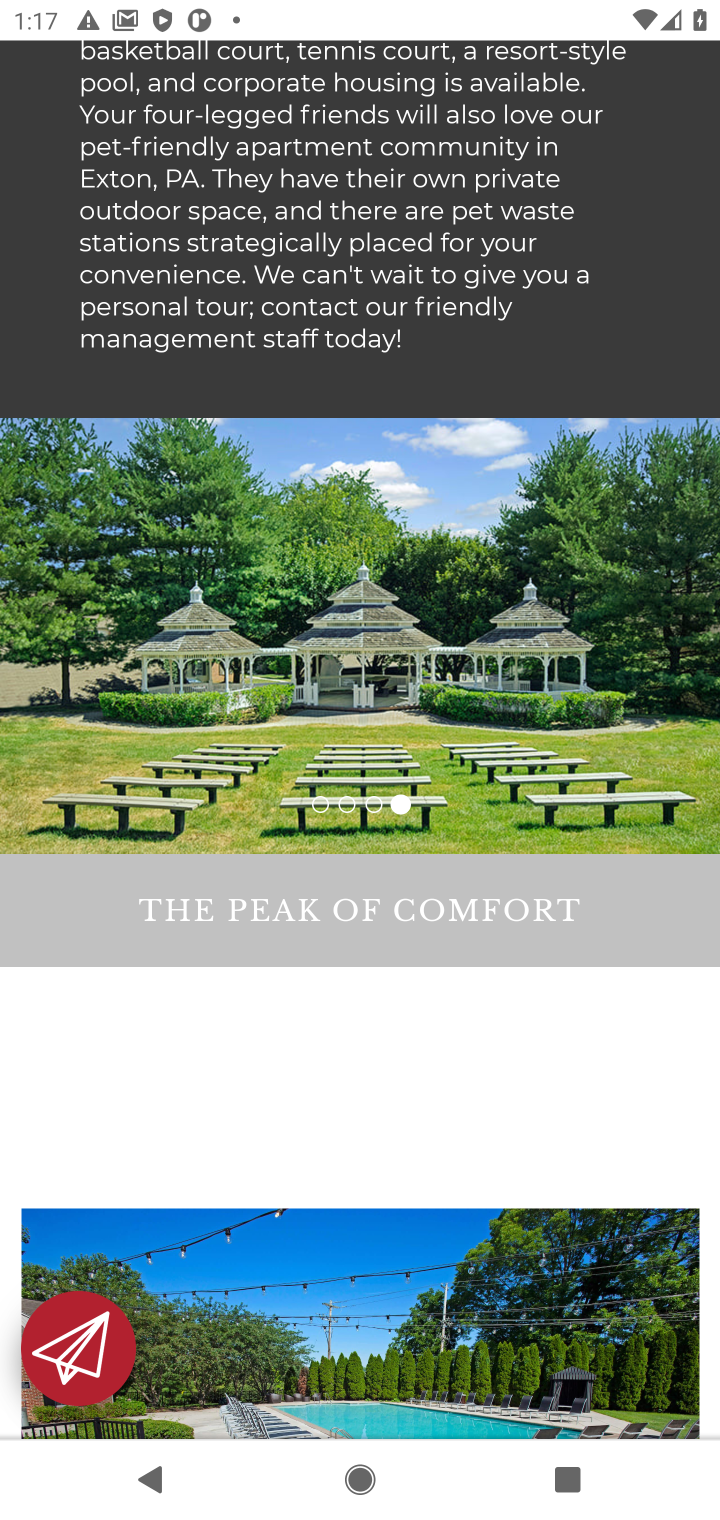
Step 27: press back button
Your task to perform on an android device: How much does a 2 bedroom apartment rent for in Philadelphia? Image 28: 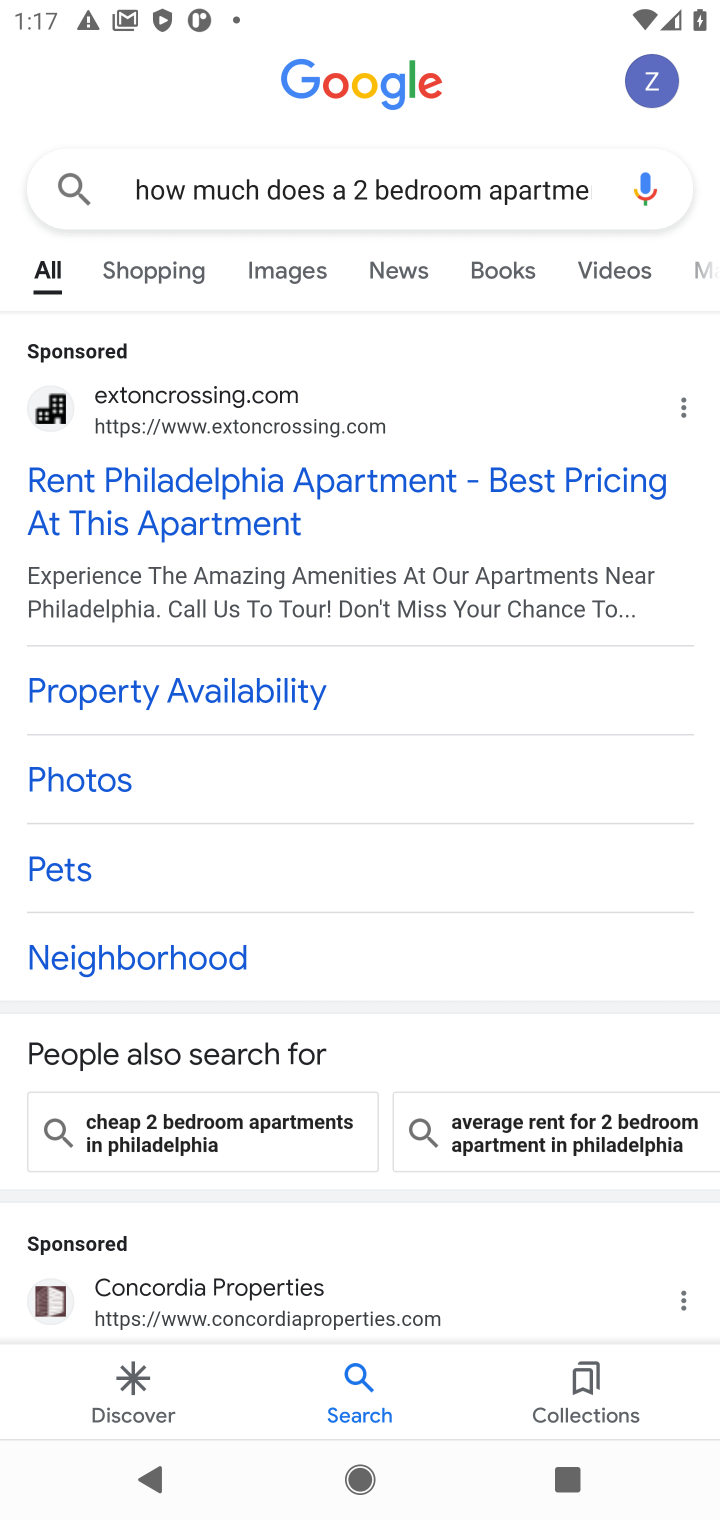
Step 28: drag from (281, 779) to (338, 326)
Your task to perform on an android device: How much does a 2 bedroom apartment rent for in Philadelphia? Image 29: 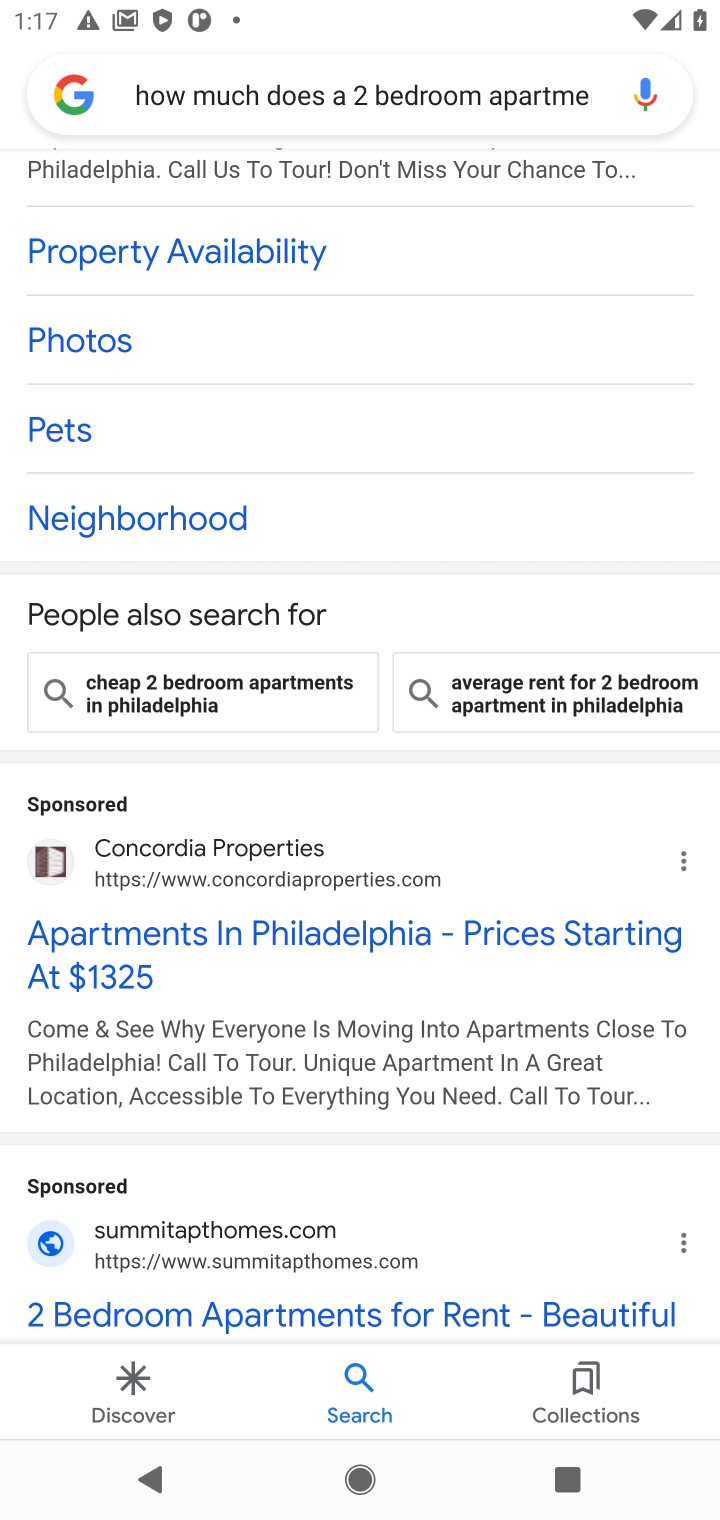
Step 29: click (46, 939)
Your task to perform on an android device: How much does a 2 bedroom apartment rent for in Philadelphia? Image 30: 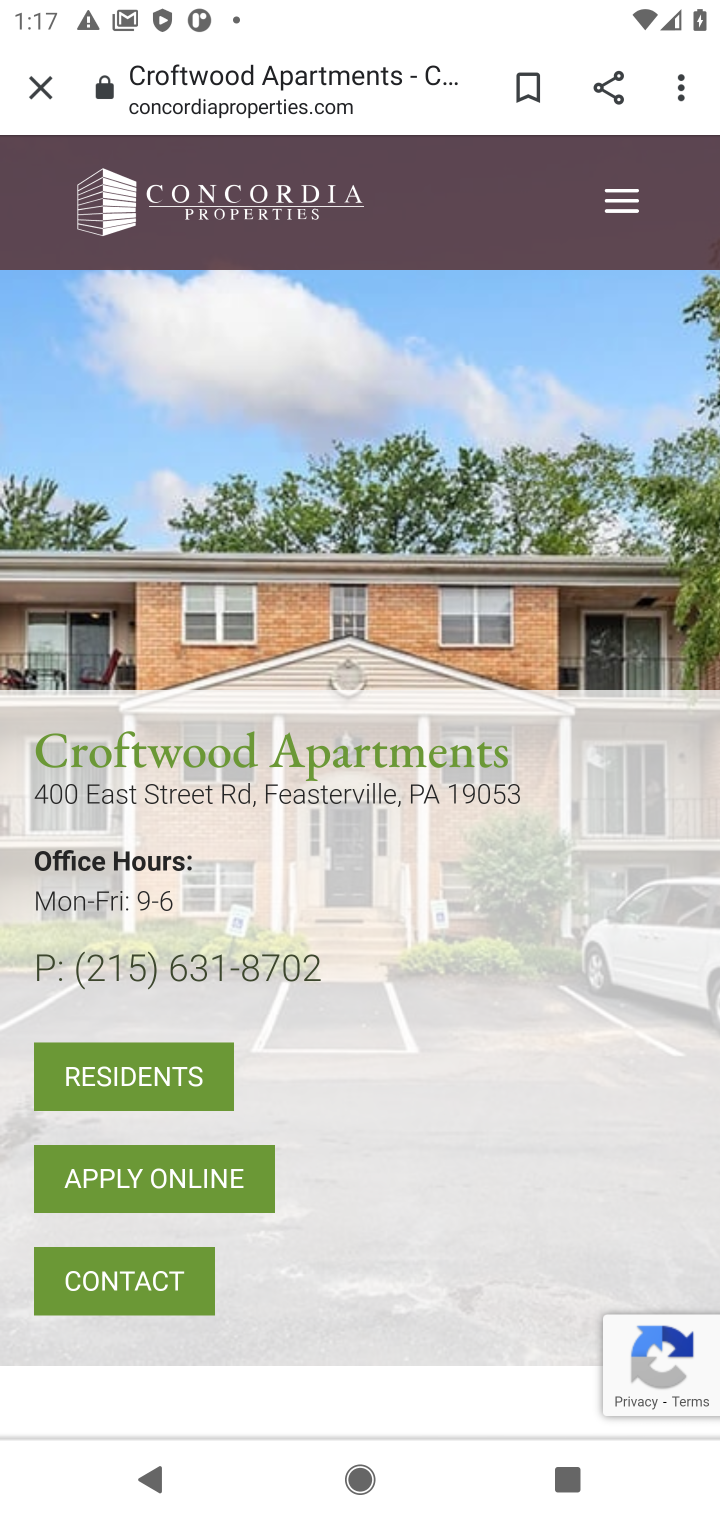
Step 30: drag from (312, 613) to (286, 248)
Your task to perform on an android device: How much does a 2 bedroom apartment rent for in Philadelphia? Image 31: 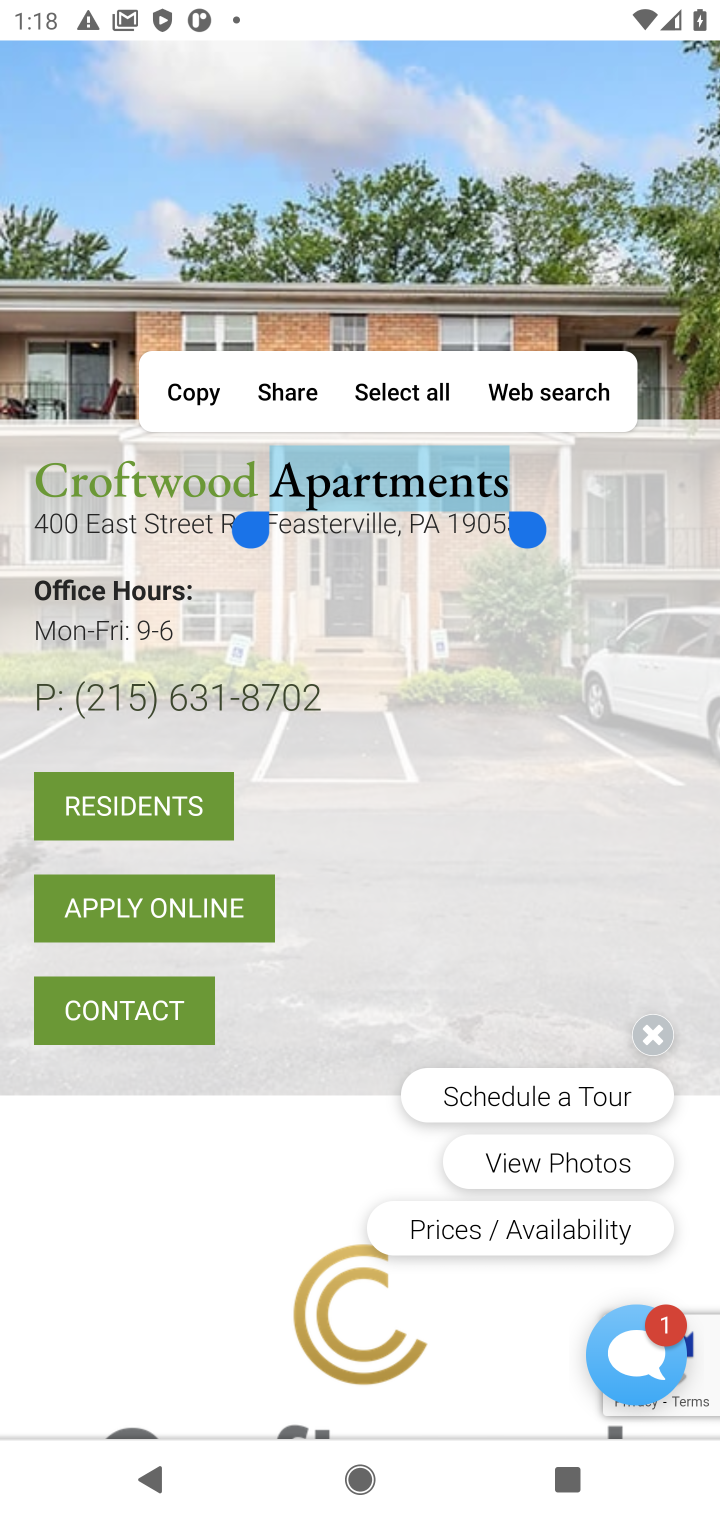
Step 31: click (652, 1044)
Your task to perform on an android device: How much does a 2 bedroom apartment rent for in Philadelphia? Image 32: 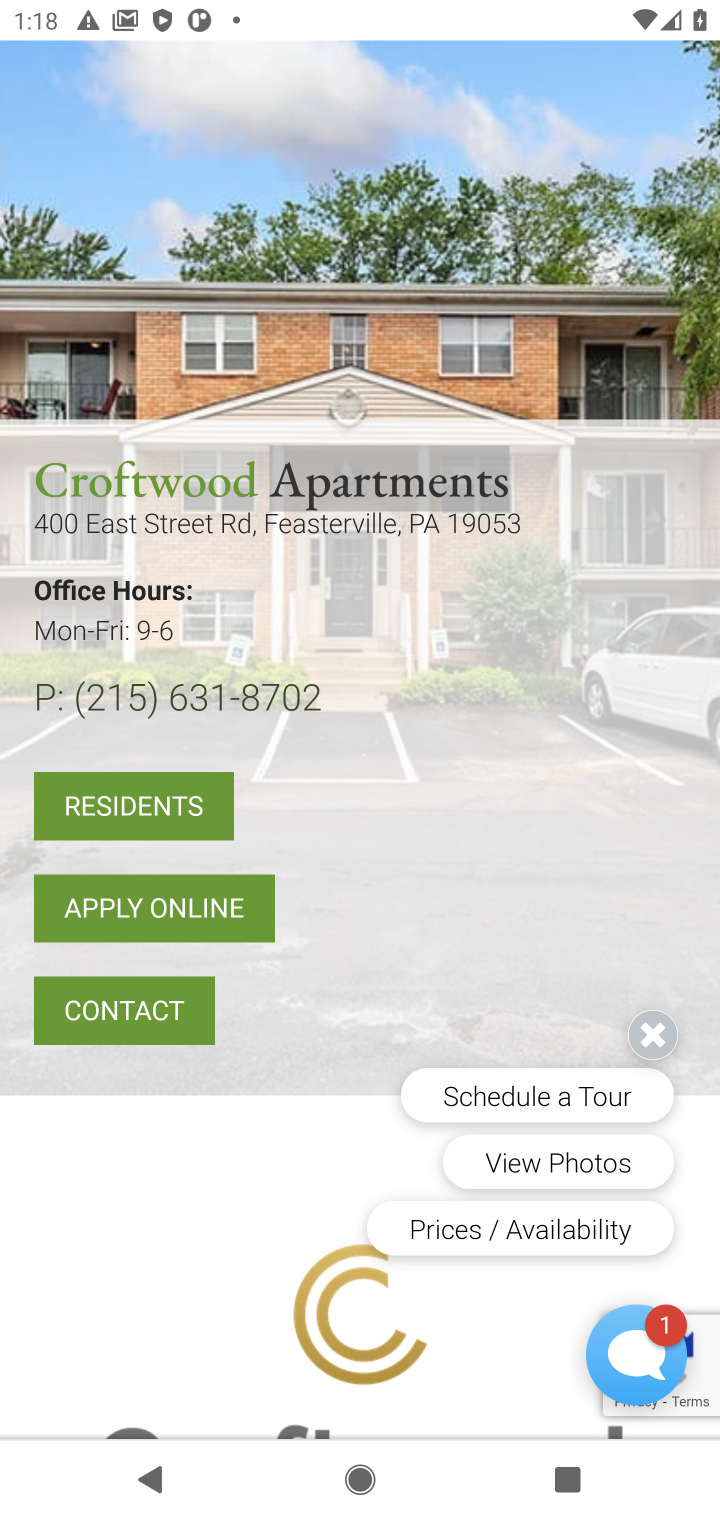
Step 32: drag from (589, 239) to (546, 64)
Your task to perform on an android device: How much does a 2 bedroom apartment rent for in Philadelphia? Image 33: 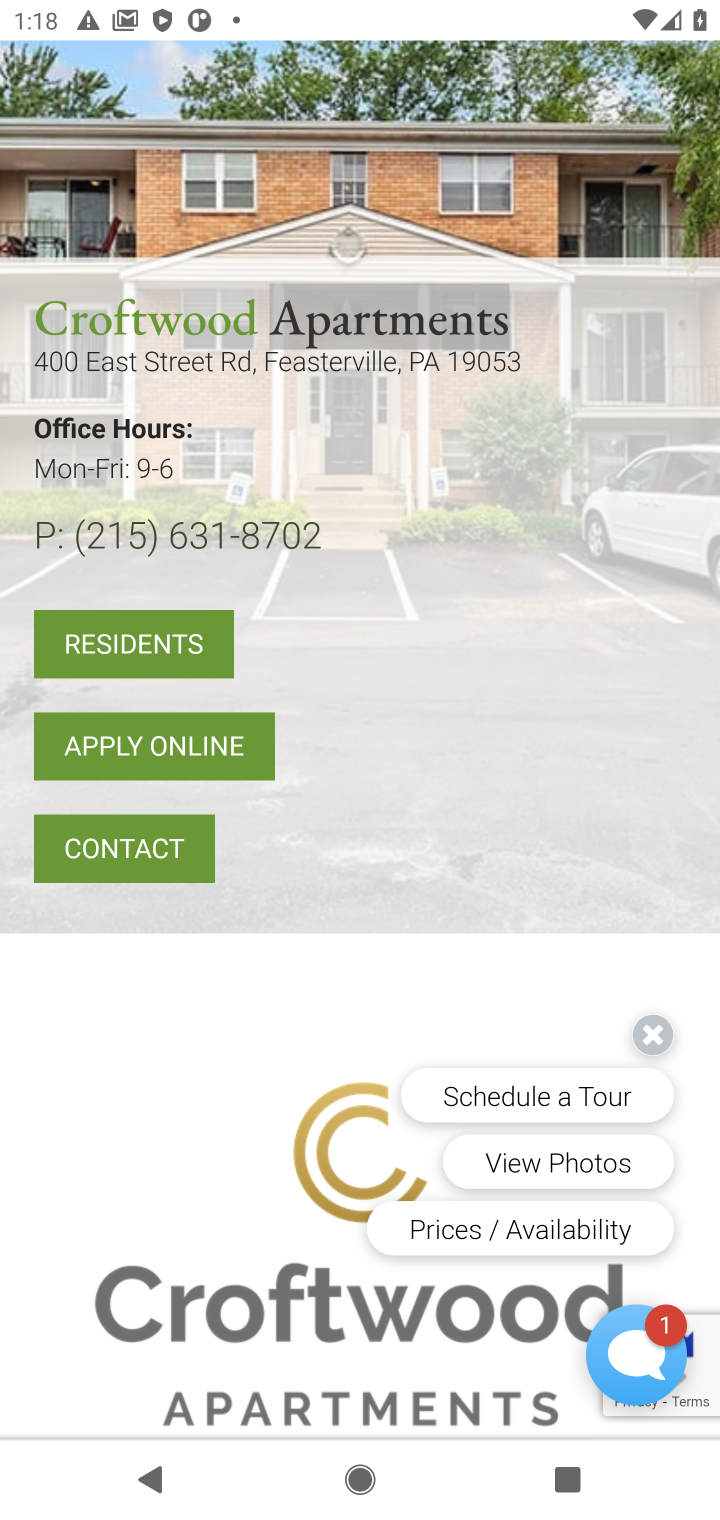
Step 33: drag from (338, 176) to (330, 72)
Your task to perform on an android device: How much does a 2 bedroom apartment rent for in Philadelphia? Image 34: 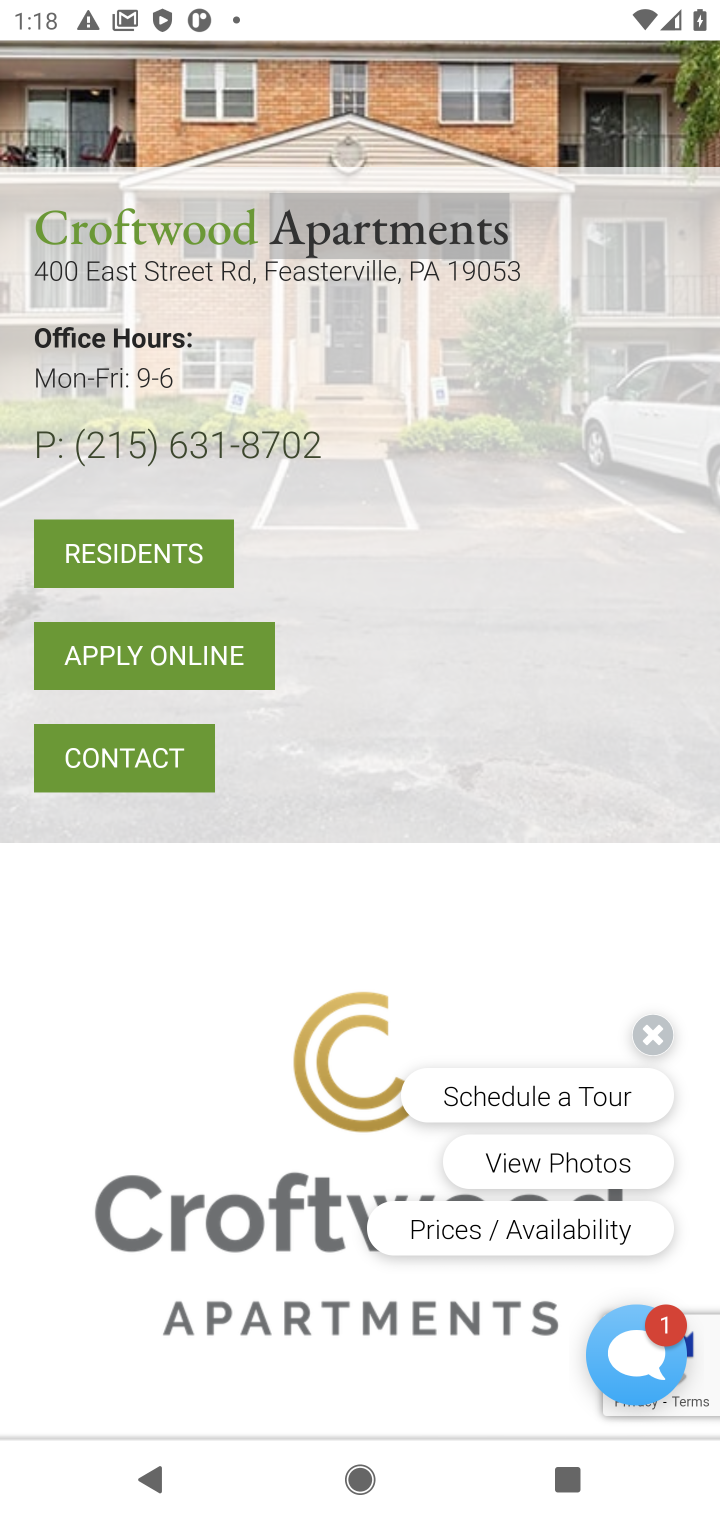
Step 34: drag from (306, 910) to (310, 165)
Your task to perform on an android device: How much does a 2 bedroom apartment rent for in Philadelphia? Image 35: 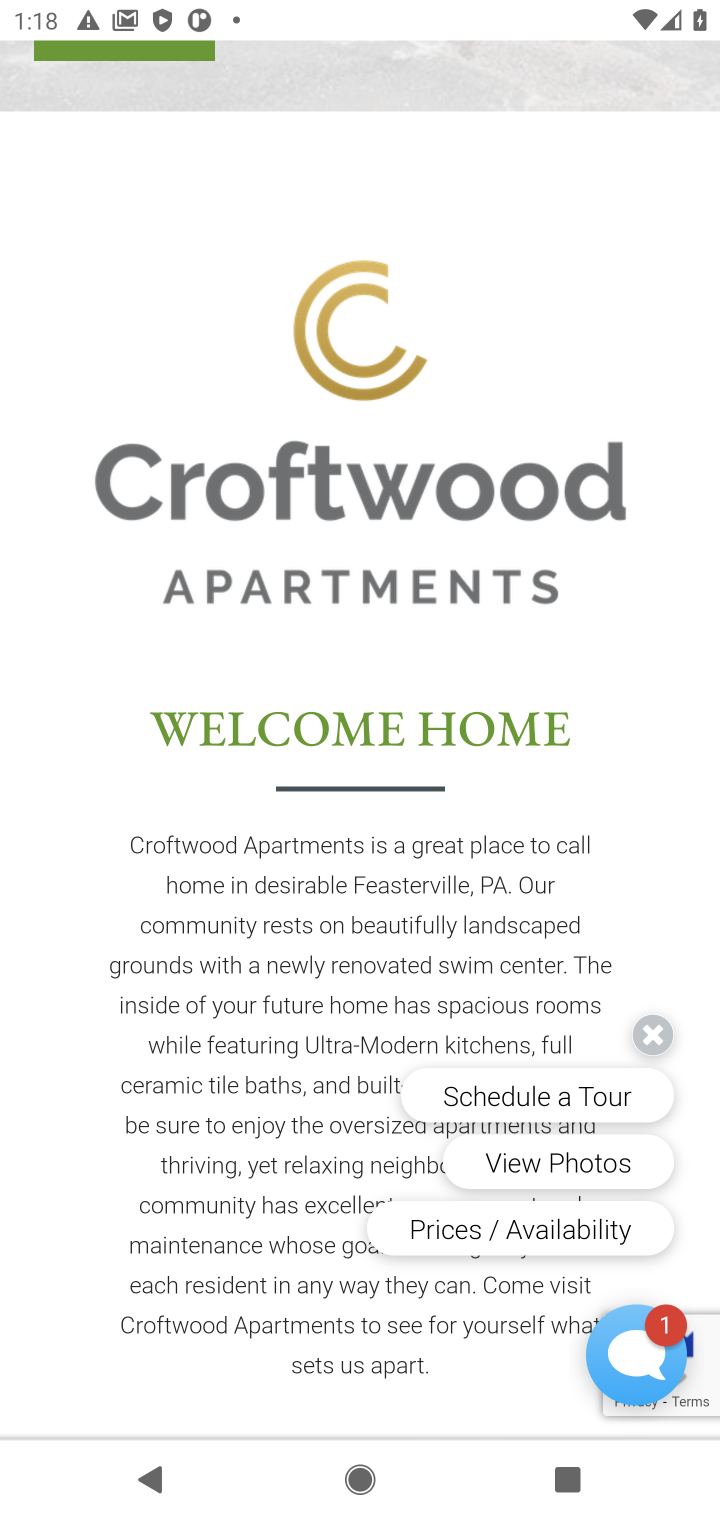
Step 35: drag from (244, 1084) to (255, 100)
Your task to perform on an android device: How much does a 2 bedroom apartment rent for in Philadelphia? Image 36: 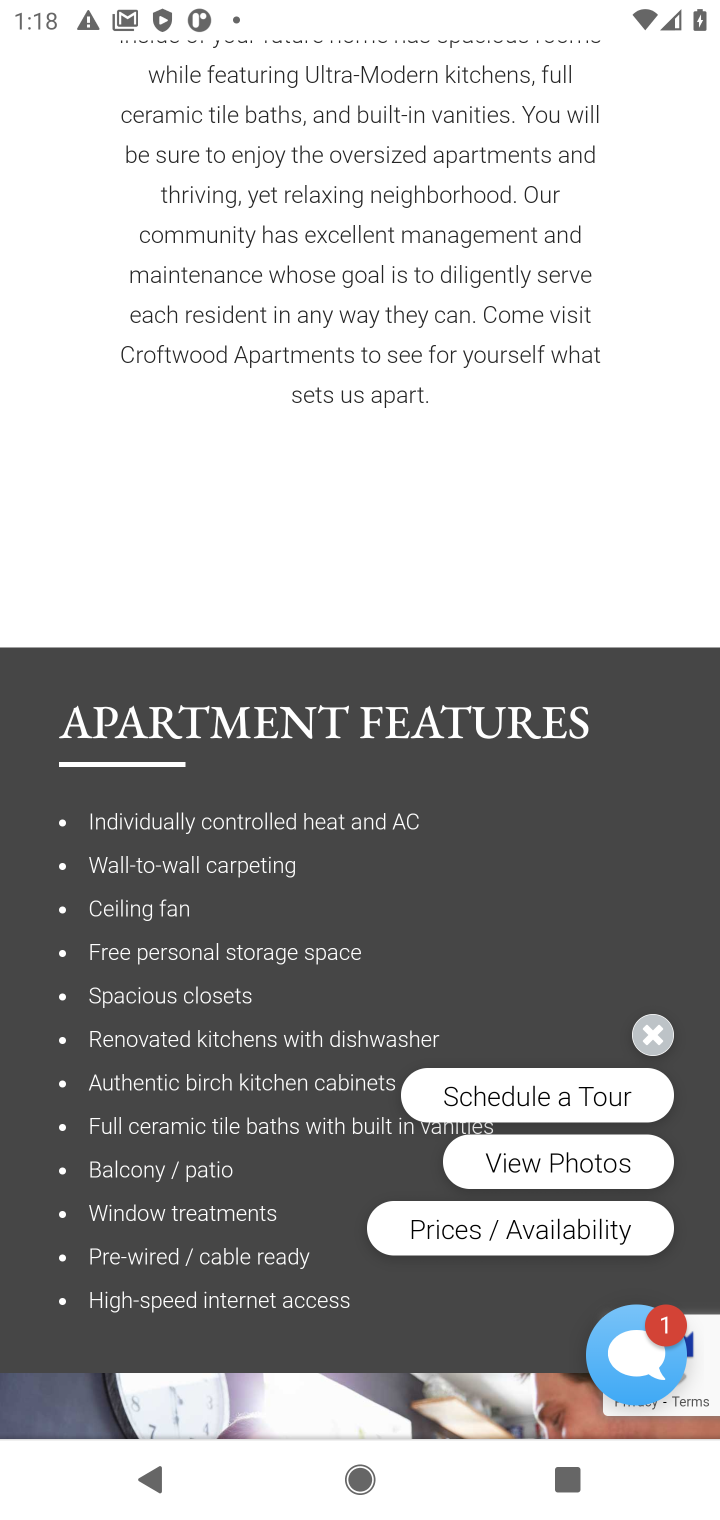
Step 36: drag from (183, 1200) to (163, 171)
Your task to perform on an android device: How much does a 2 bedroom apartment rent for in Philadelphia? Image 37: 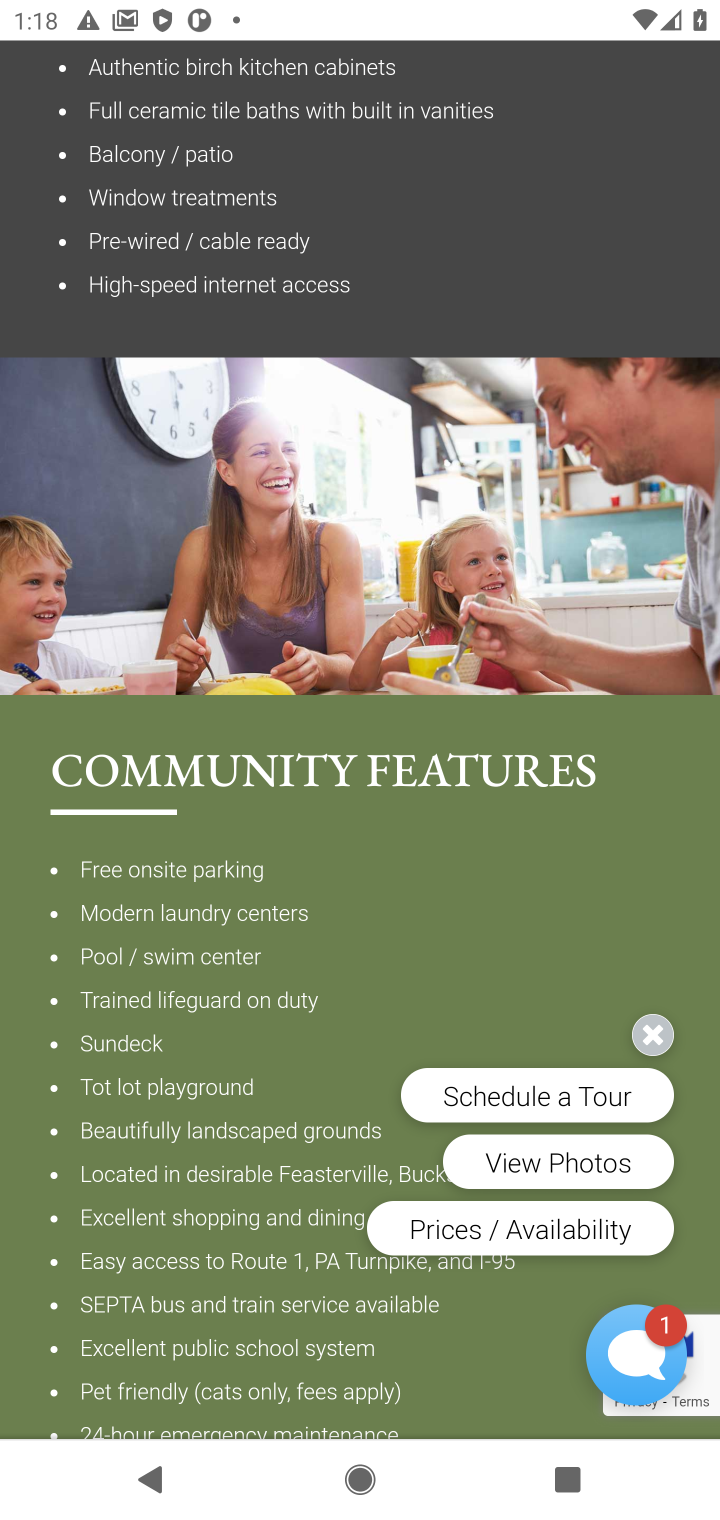
Step 37: drag from (207, 1015) to (158, 11)
Your task to perform on an android device: How much does a 2 bedroom apartment rent for in Philadelphia? Image 38: 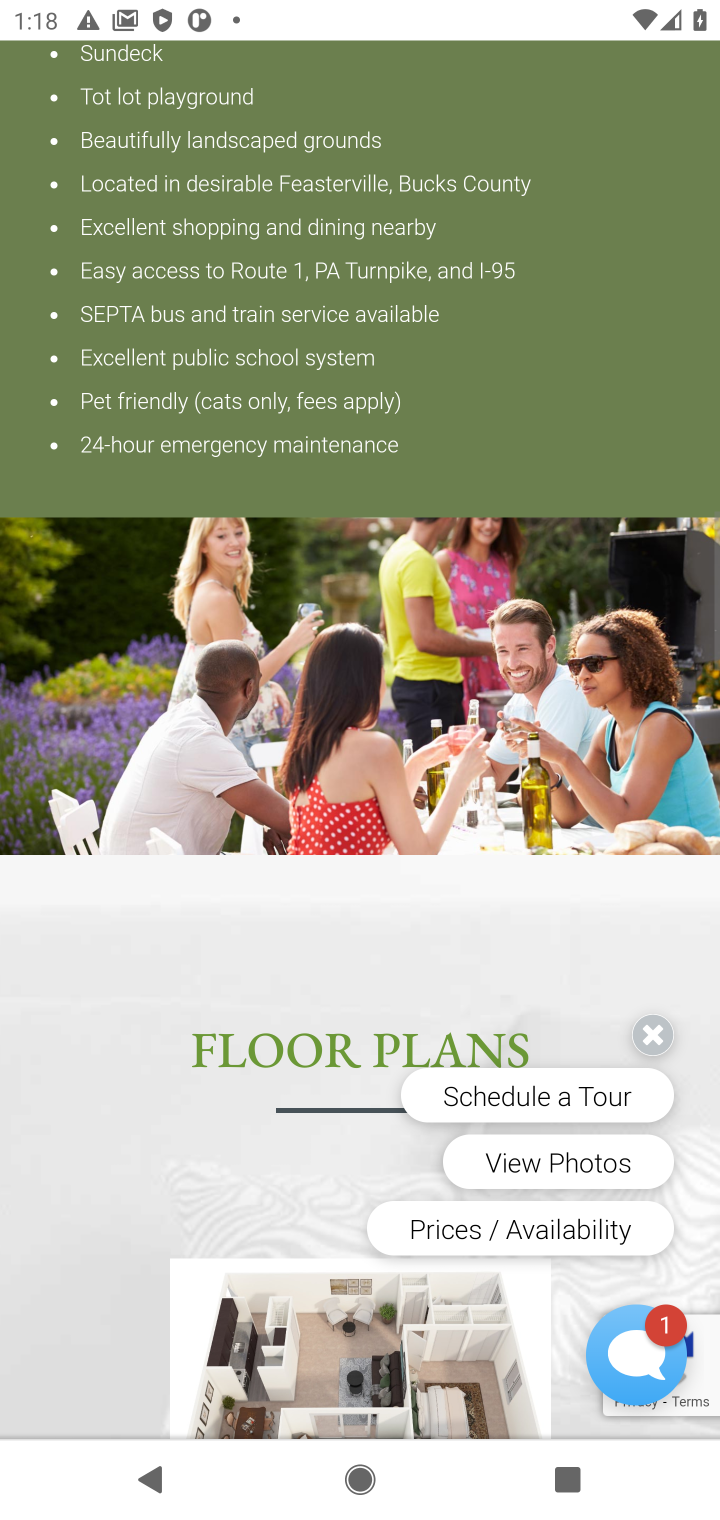
Step 38: drag from (288, 581) to (286, 166)
Your task to perform on an android device: How much does a 2 bedroom apartment rent for in Philadelphia? Image 39: 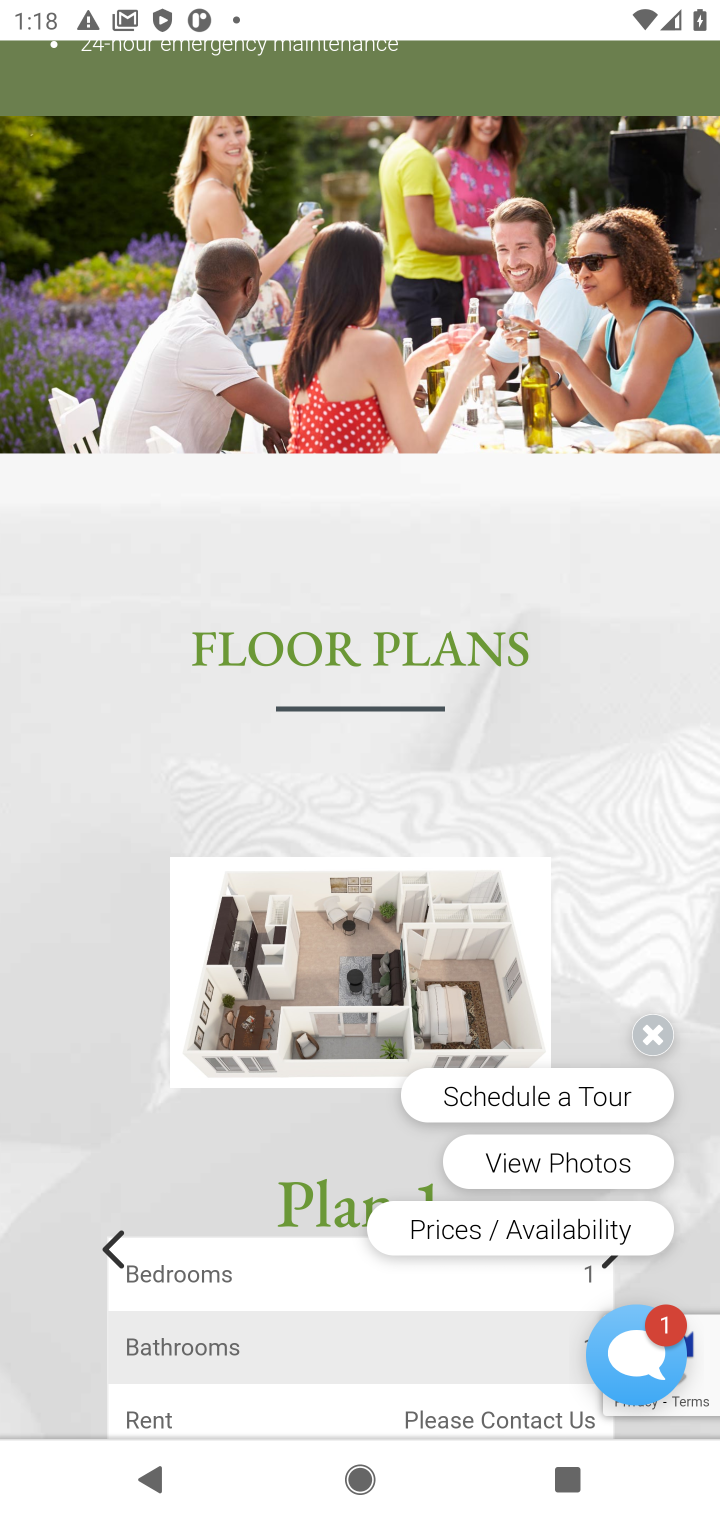
Step 39: press back button
Your task to perform on an android device: How much does a 2 bedroom apartment rent for in Philadelphia? Image 40: 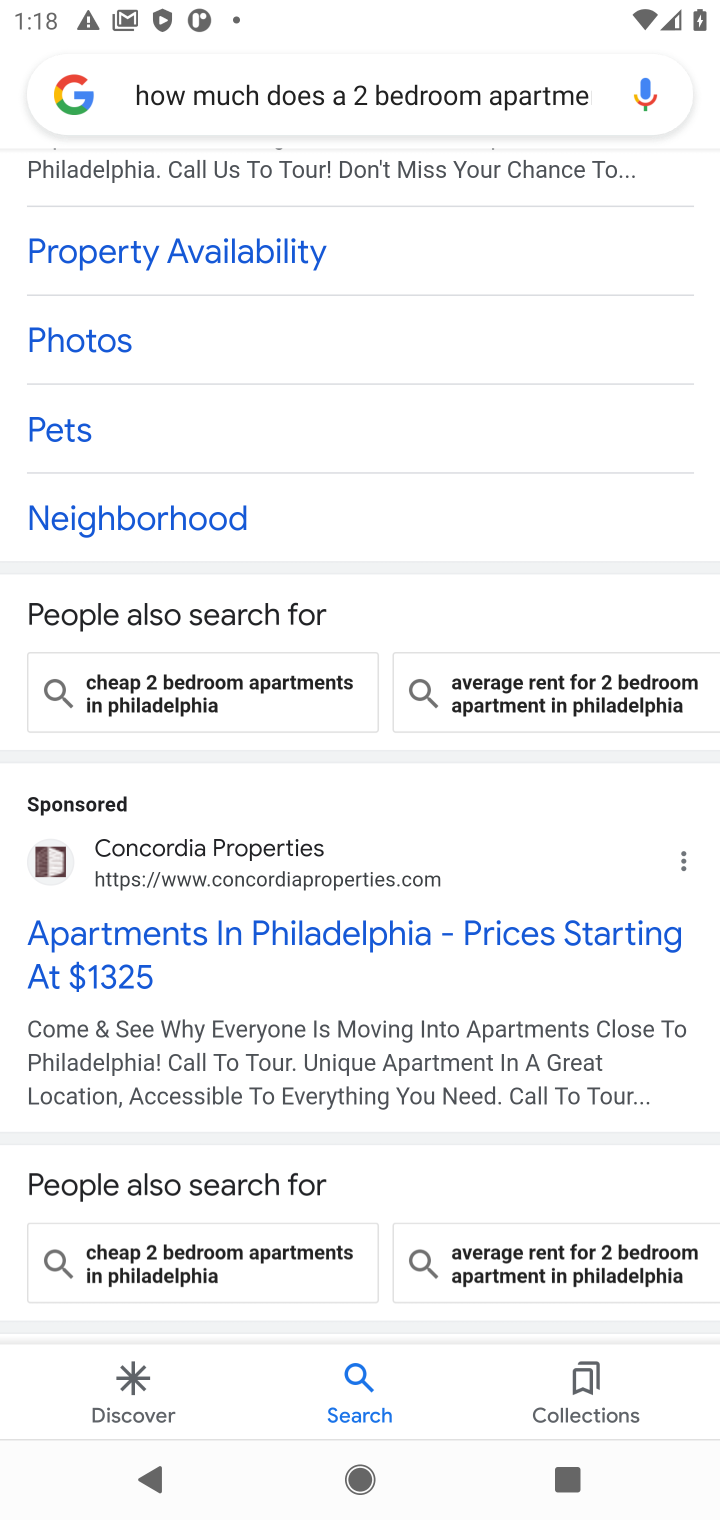
Step 40: drag from (236, 890) to (291, 206)
Your task to perform on an android device: How much does a 2 bedroom apartment rent for in Philadelphia? Image 41: 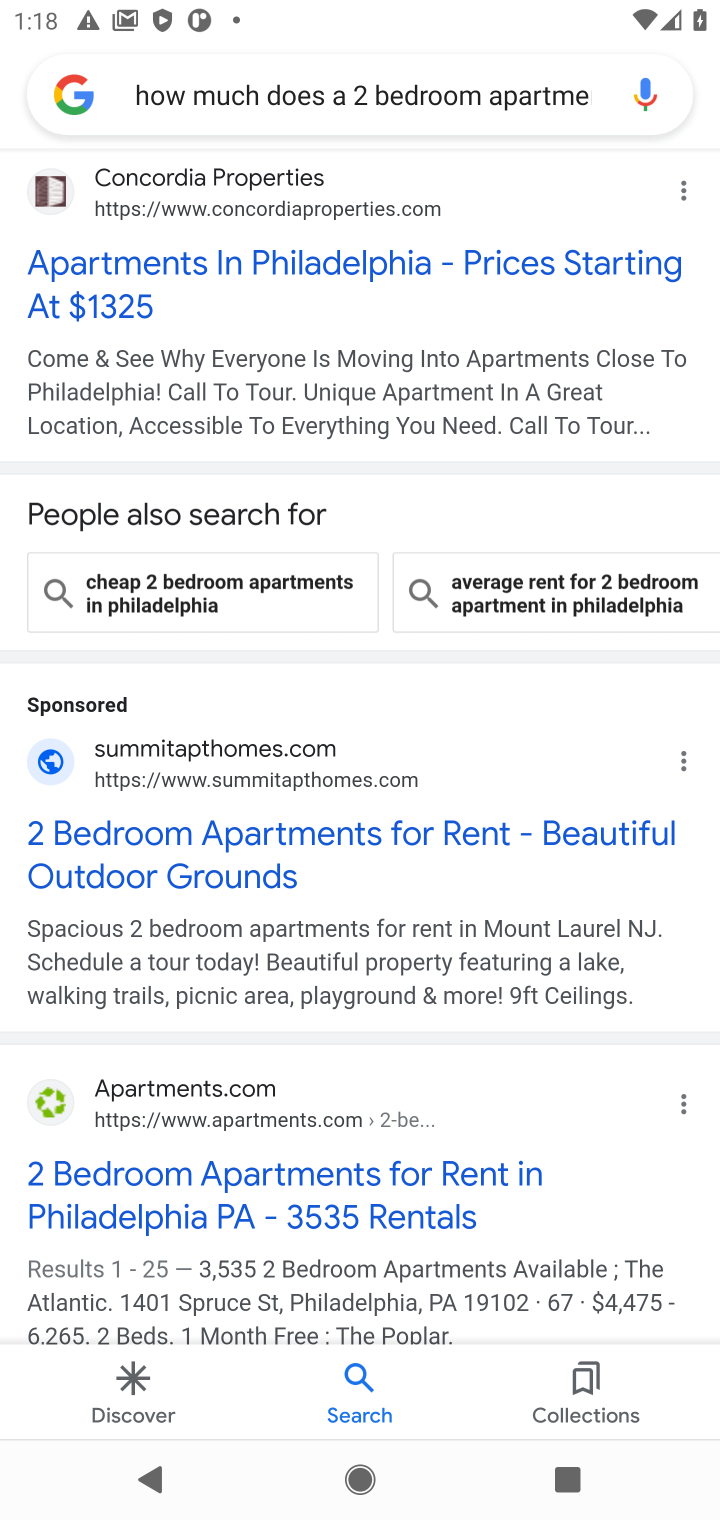
Step 41: click (178, 1203)
Your task to perform on an android device: How much does a 2 bedroom apartment rent for in Philadelphia? Image 42: 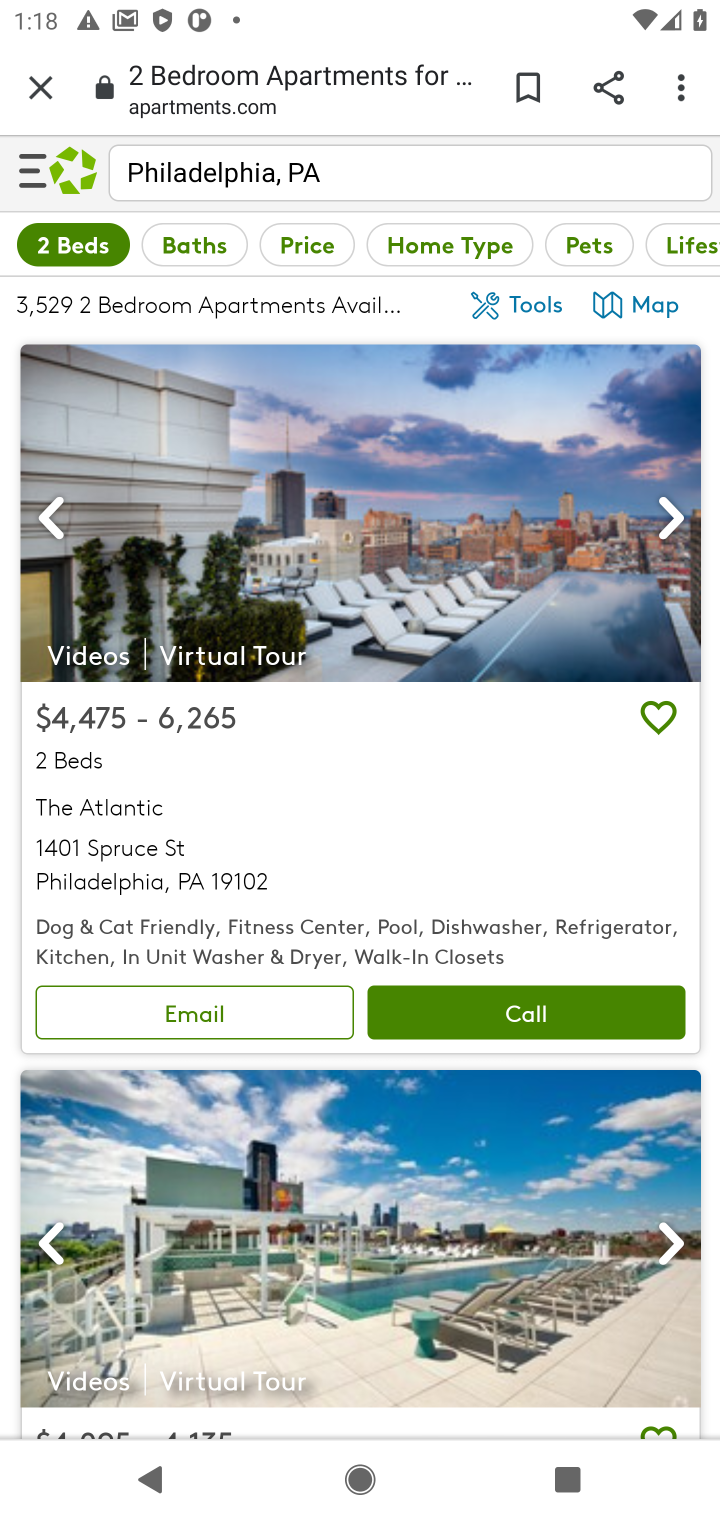
Step 42: task complete